Your task to perform on an android device: Clear the cart on target. Search for razer thresher on target, select the first entry, add it to the cart, then select checkout. Image 0: 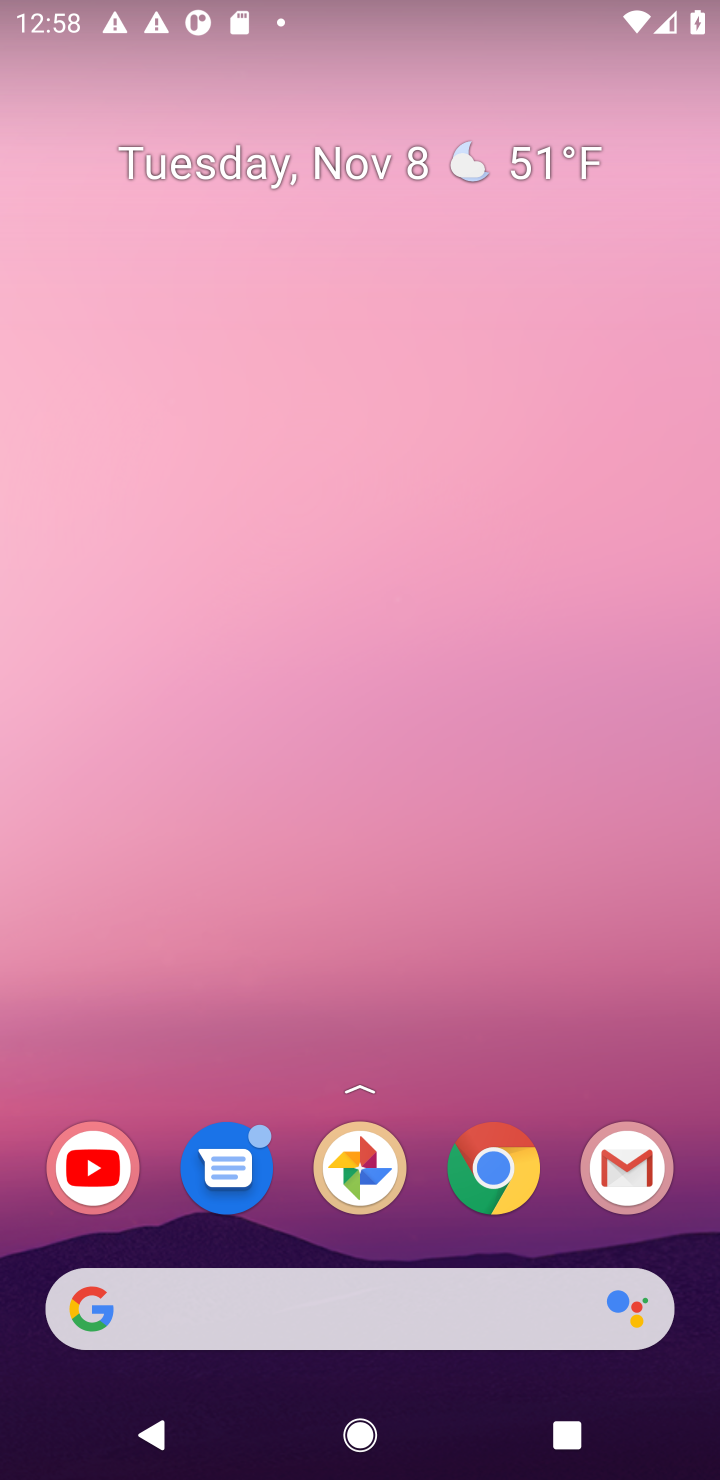
Step 0: drag from (375, 1222) to (554, 263)
Your task to perform on an android device: Clear the cart on target. Search for razer thresher on target, select the first entry, add it to the cart, then select checkout. Image 1: 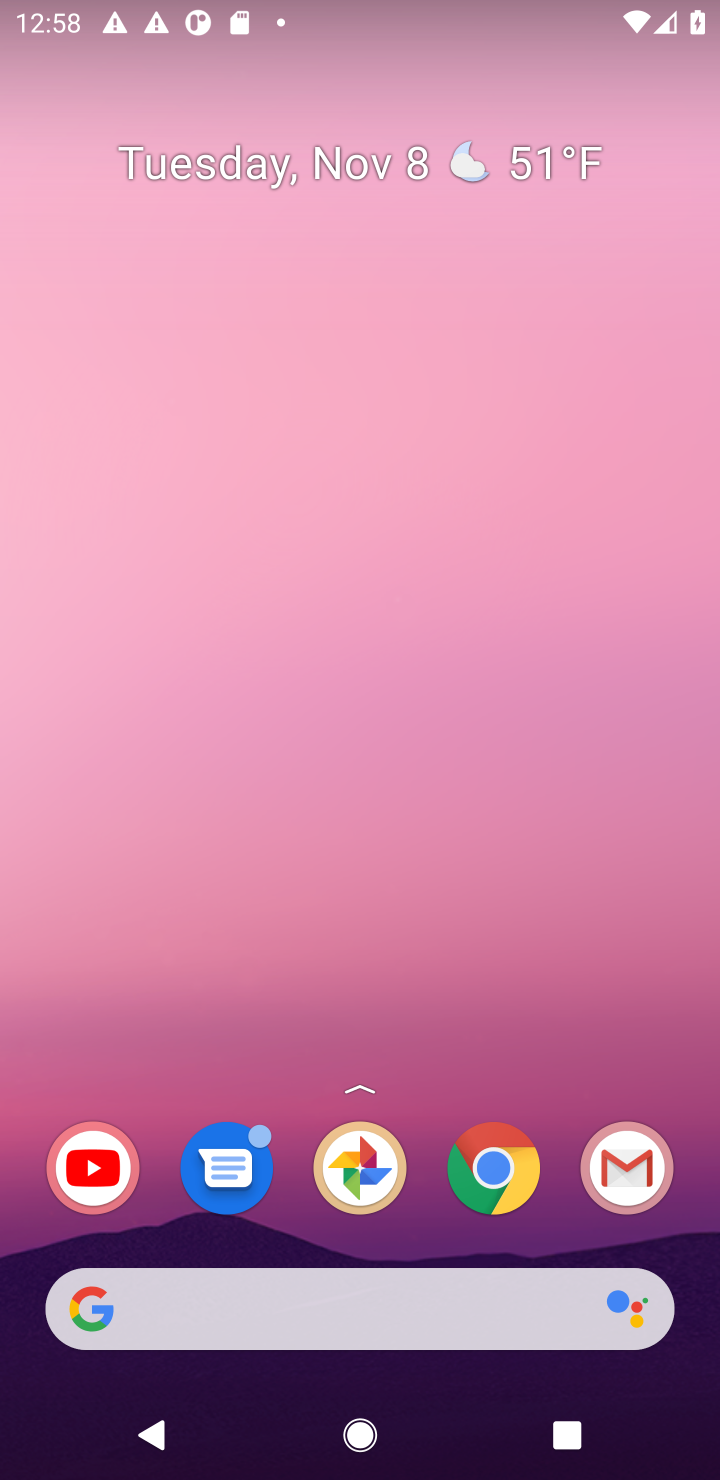
Step 1: drag from (334, 1107) to (395, 428)
Your task to perform on an android device: Clear the cart on target. Search for razer thresher on target, select the first entry, add it to the cart, then select checkout. Image 2: 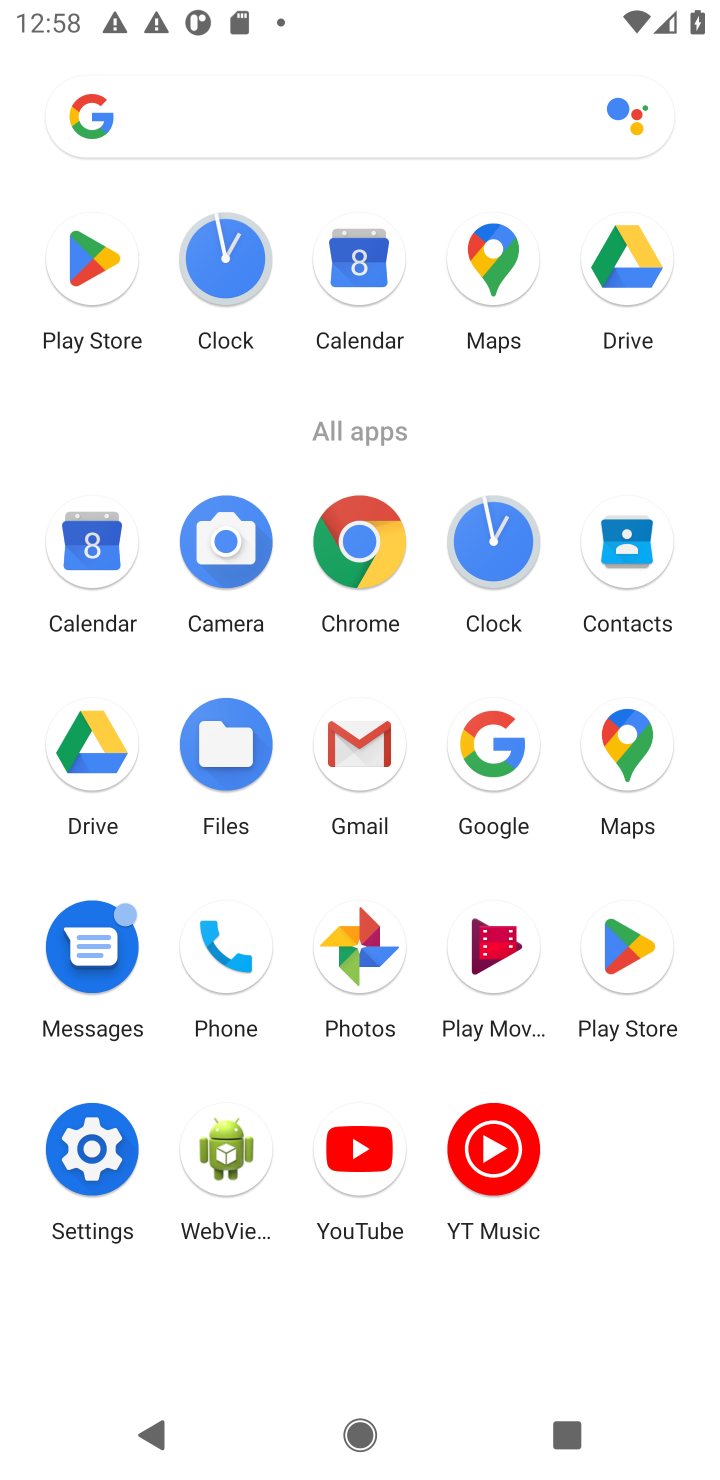
Step 2: click (373, 526)
Your task to perform on an android device: Clear the cart on target. Search for razer thresher on target, select the first entry, add it to the cart, then select checkout. Image 3: 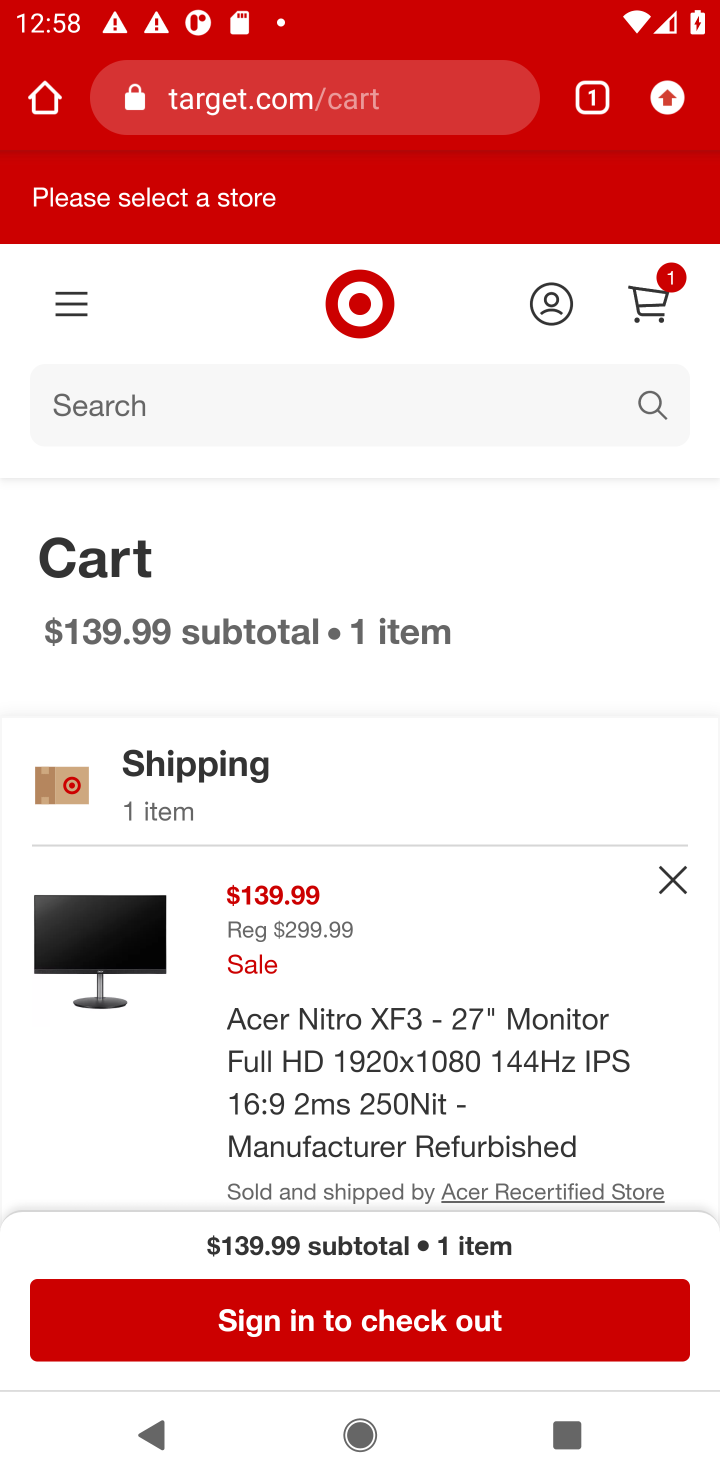
Step 3: click (386, 95)
Your task to perform on an android device: Clear the cart on target. Search for razer thresher on target, select the first entry, add it to the cart, then select checkout. Image 4: 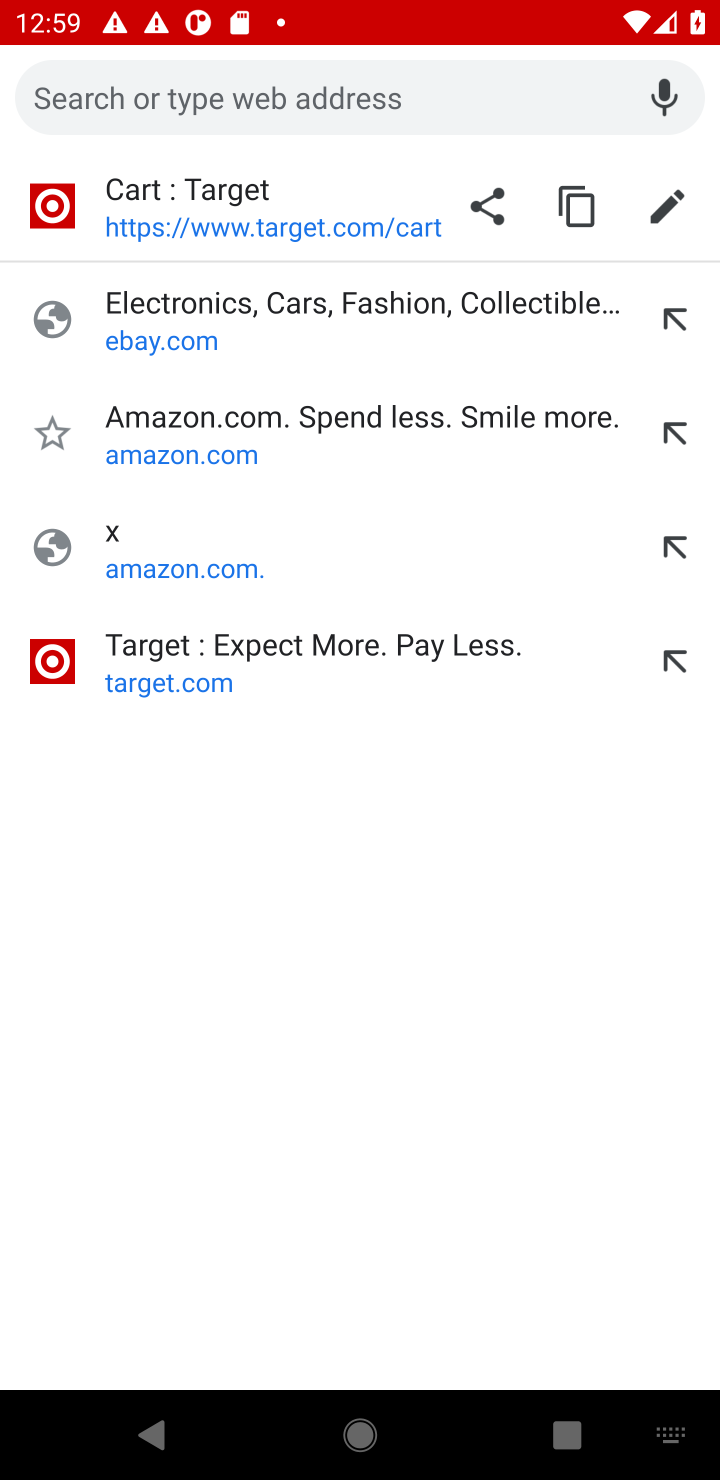
Step 4: type "target"
Your task to perform on an android device: Clear the cart on target. Search for razer thresher on target, select the first entry, add it to the cart, then select checkout. Image 5: 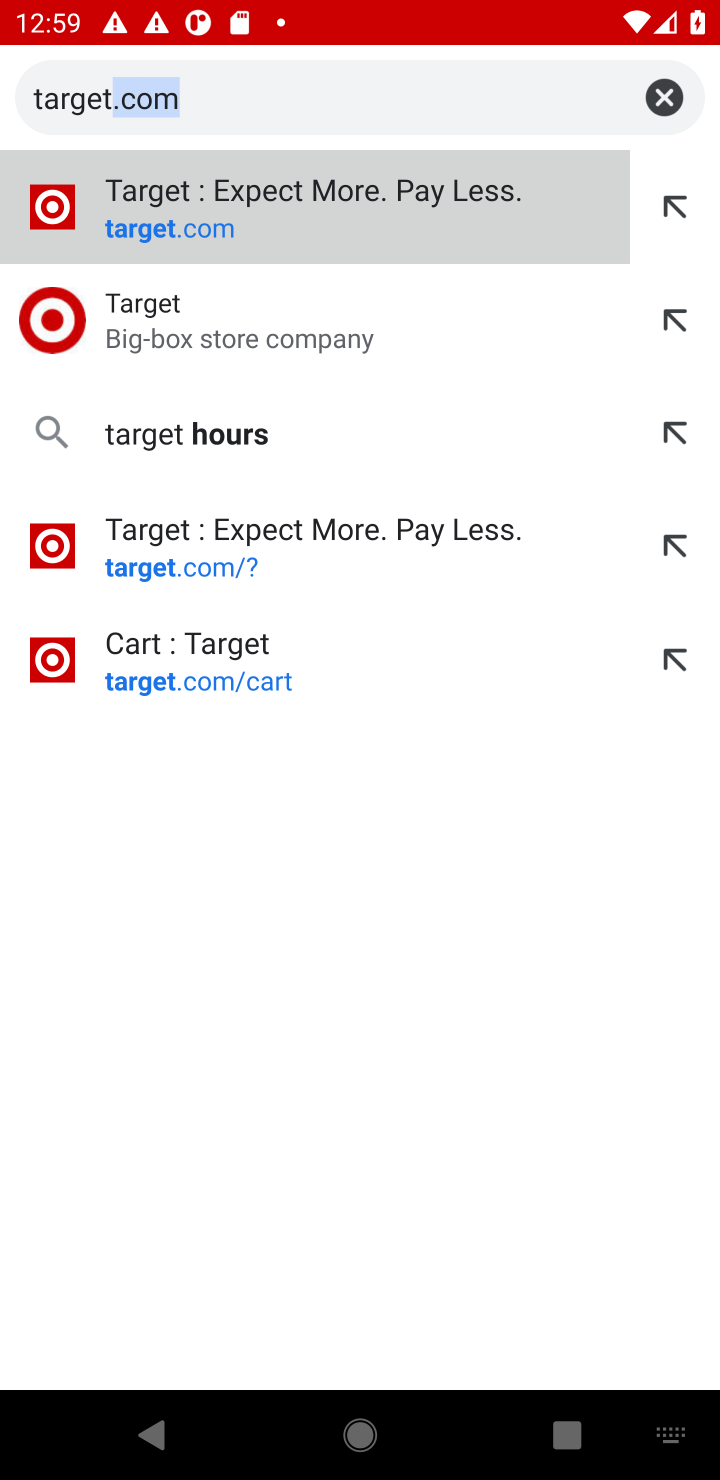
Step 5: press enter
Your task to perform on an android device: Clear the cart on target. Search for razer thresher on target, select the first entry, add it to the cart, then select checkout. Image 6: 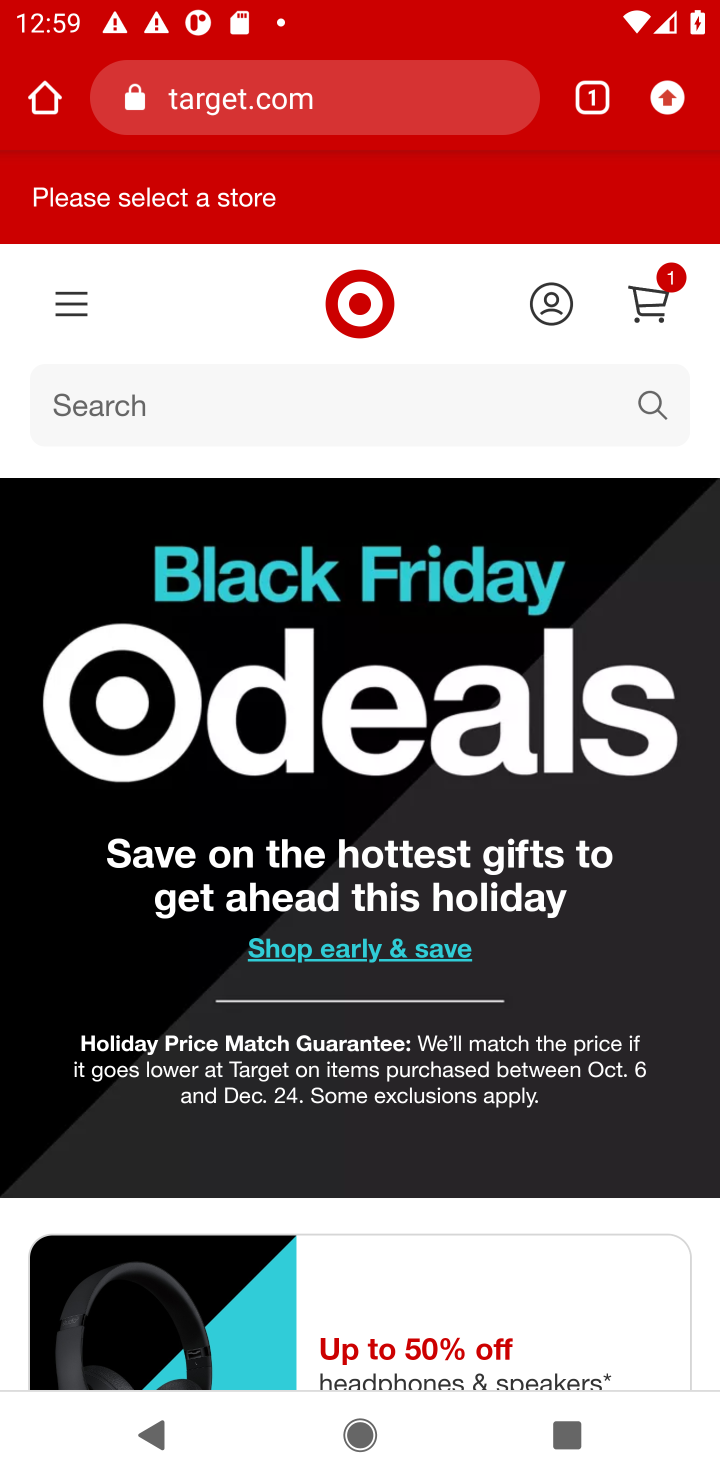
Step 6: click (674, 294)
Your task to perform on an android device: Clear the cart on target. Search for razer thresher on target, select the first entry, add it to the cart, then select checkout. Image 7: 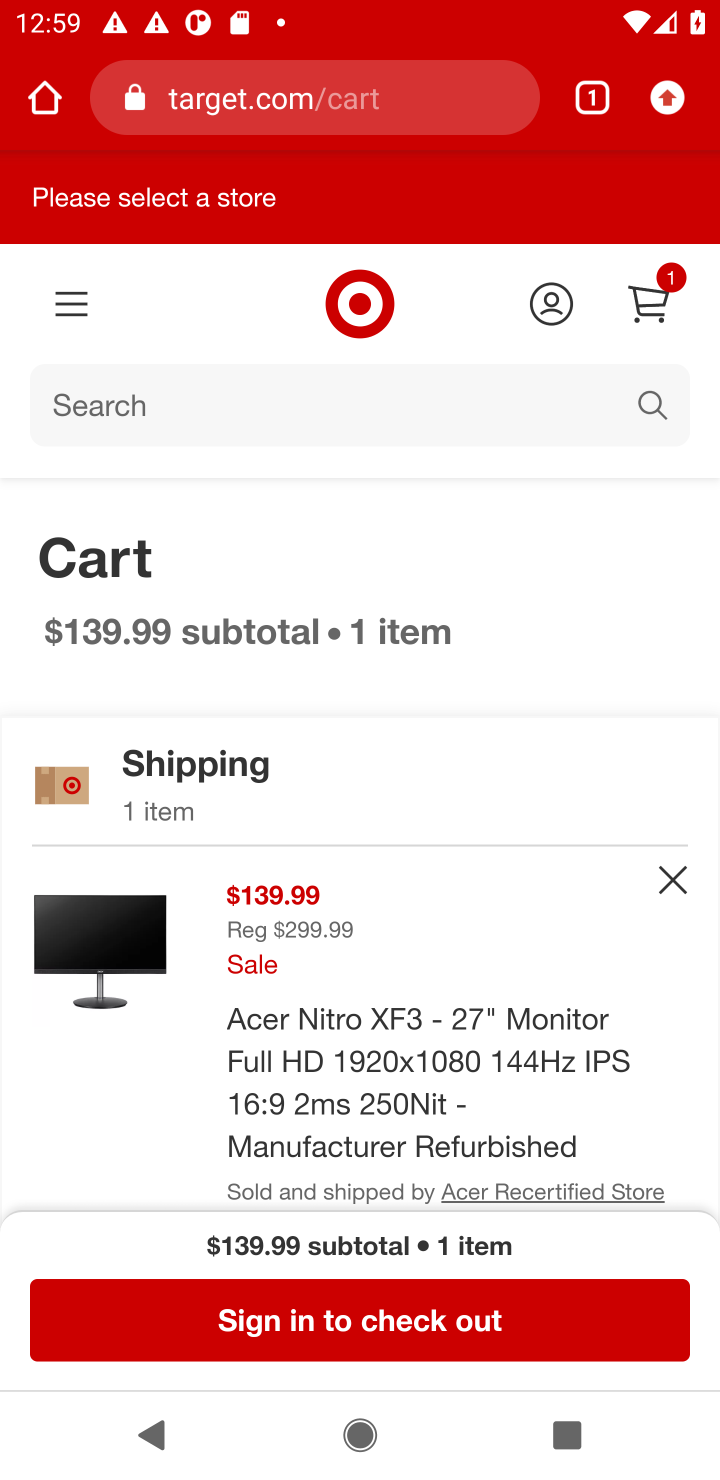
Step 7: click (674, 293)
Your task to perform on an android device: Clear the cart on target. Search for razer thresher on target, select the first entry, add it to the cart, then select checkout. Image 8: 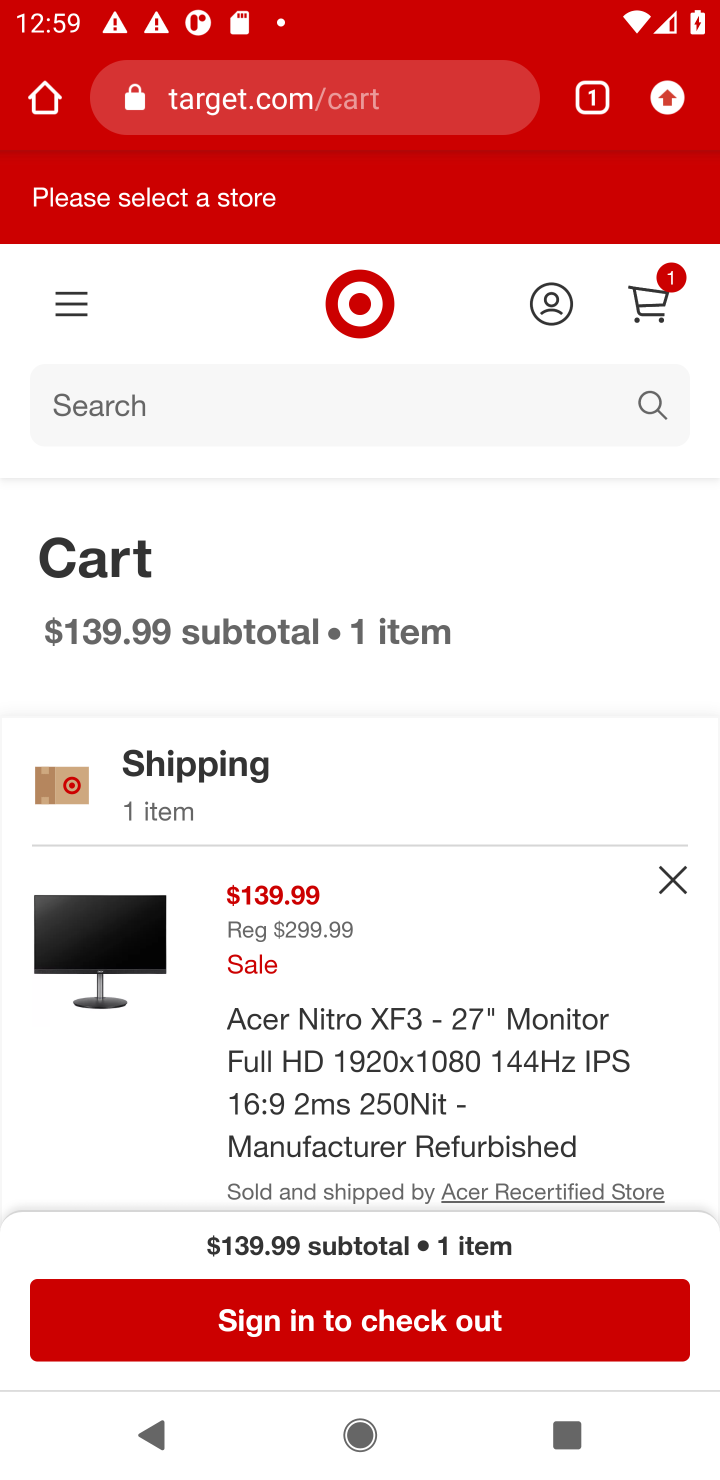
Step 8: drag from (607, 942) to (621, 609)
Your task to perform on an android device: Clear the cart on target. Search for razer thresher on target, select the first entry, add it to the cart, then select checkout. Image 9: 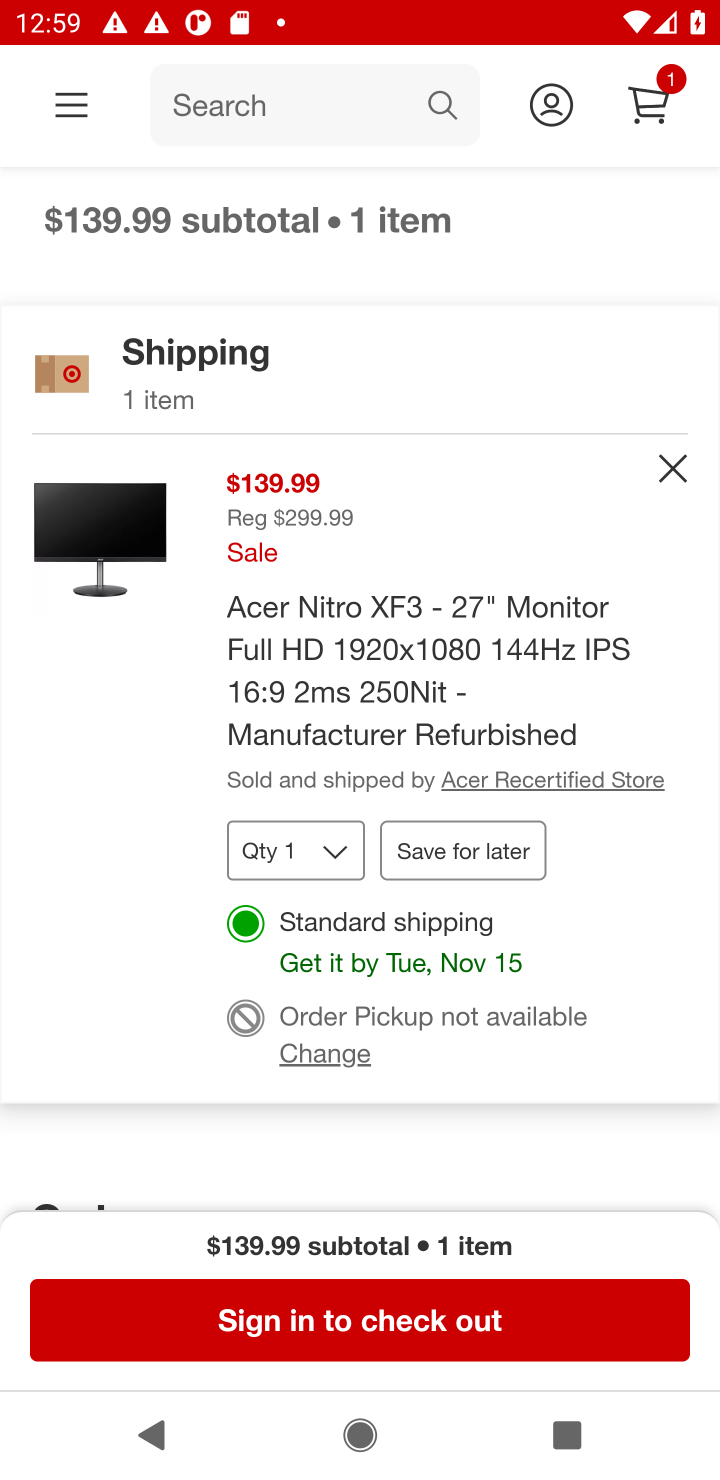
Step 9: click (669, 472)
Your task to perform on an android device: Clear the cart on target. Search for razer thresher on target, select the first entry, add it to the cart, then select checkout. Image 10: 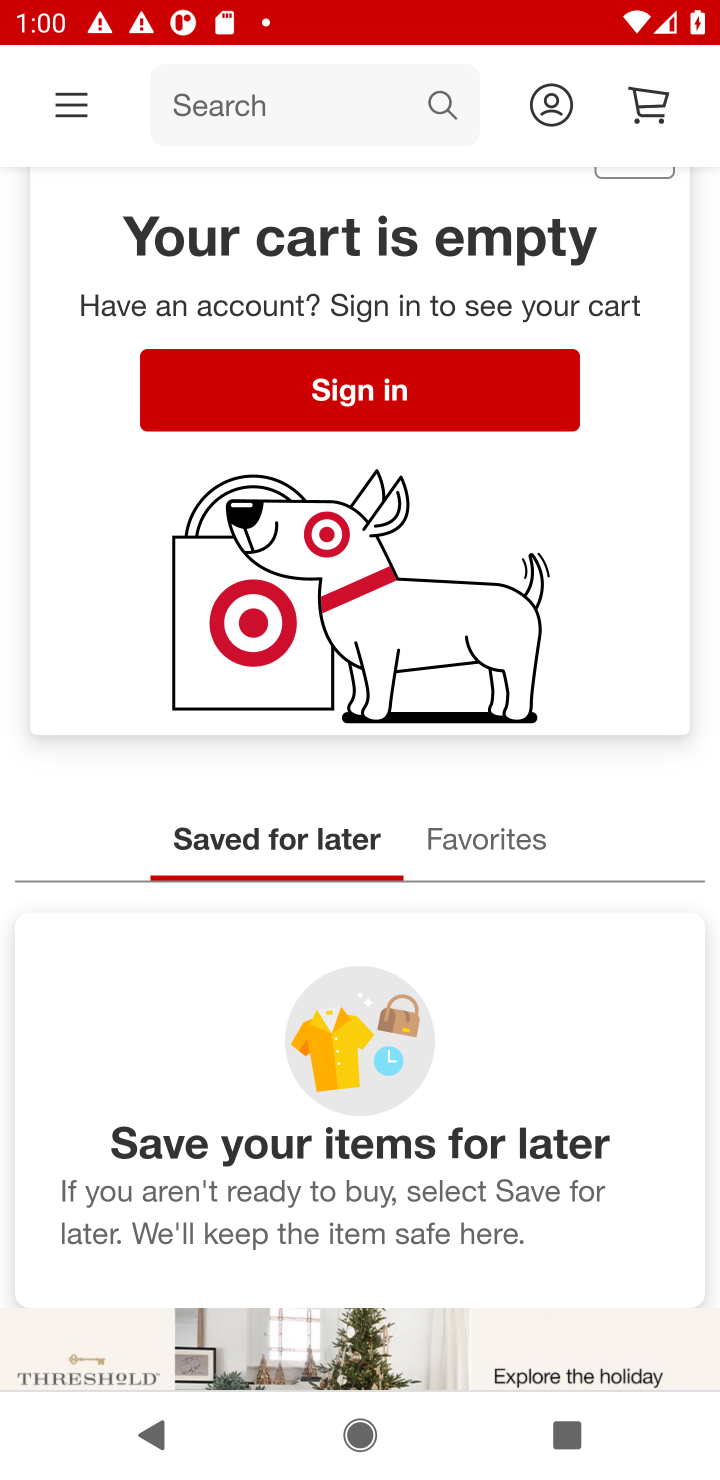
Step 10: click (451, 111)
Your task to perform on an android device: Clear the cart on target. Search for razer thresher on target, select the first entry, add it to the cart, then select checkout. Image 11: 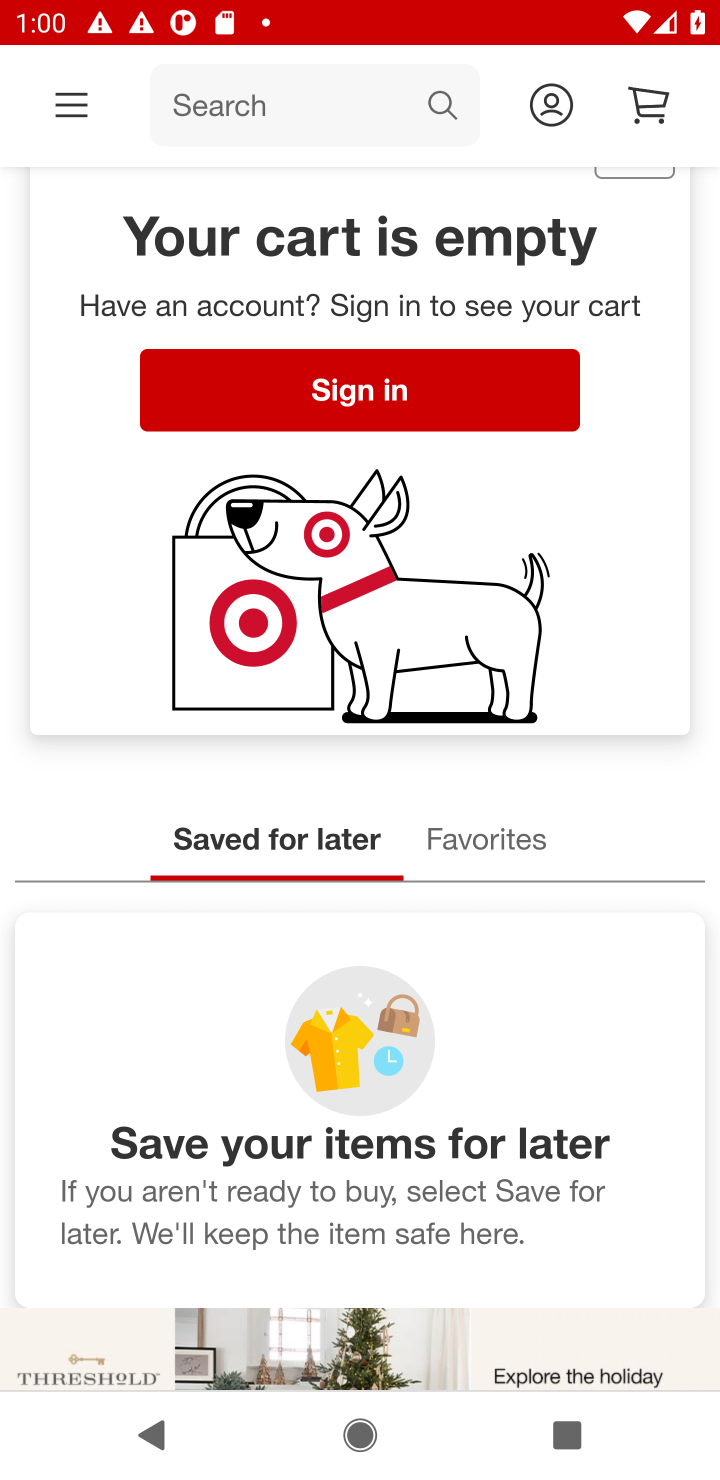
Step 11: click (280, 104)
Your task to perform on an android device: Clear the cart on target. Search for razer thresher on target, select the first entry, add it to the cart, then select checkout. Image 12: 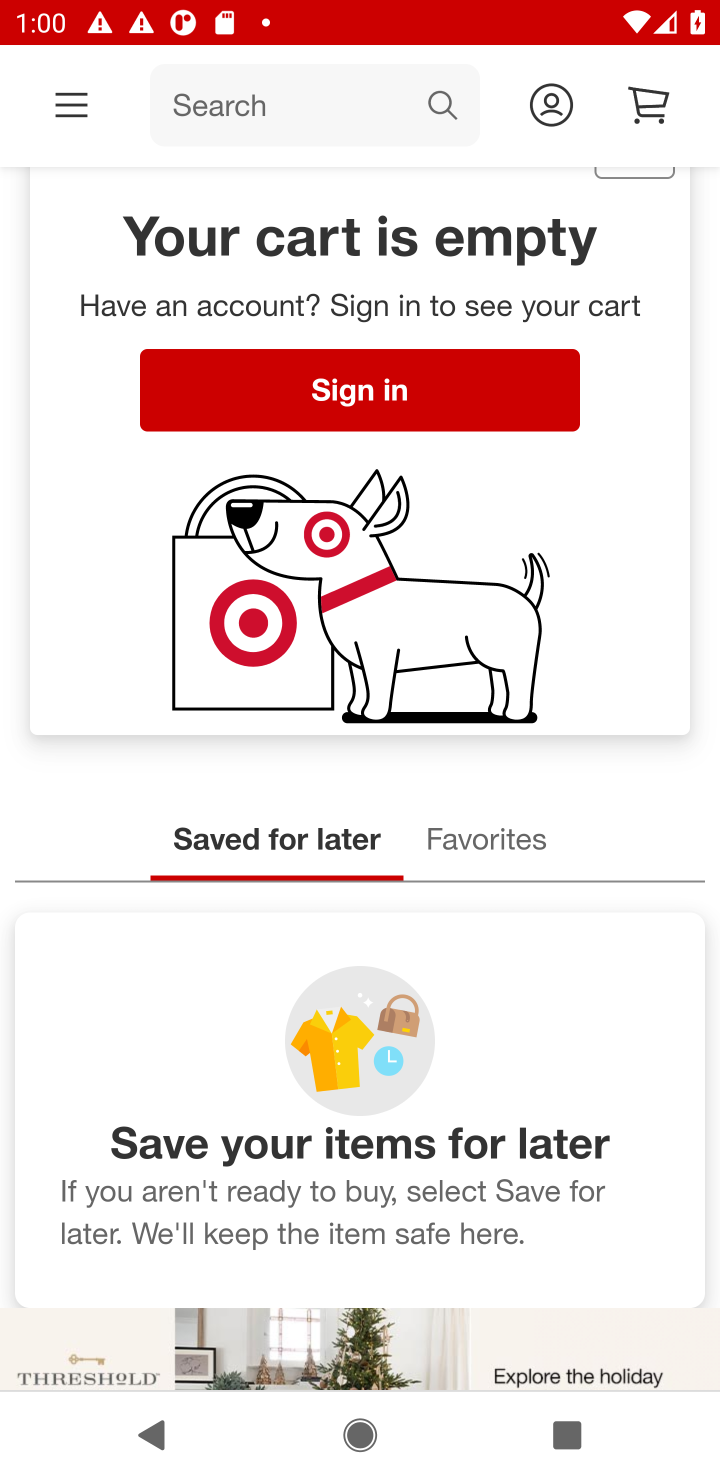
Step 12: click (280, 104)
Your task to perform on an android device: Clear the cart on target. Search for razer thresher on target, select the first entry, add it to the cart, then select checkout. Image 13: 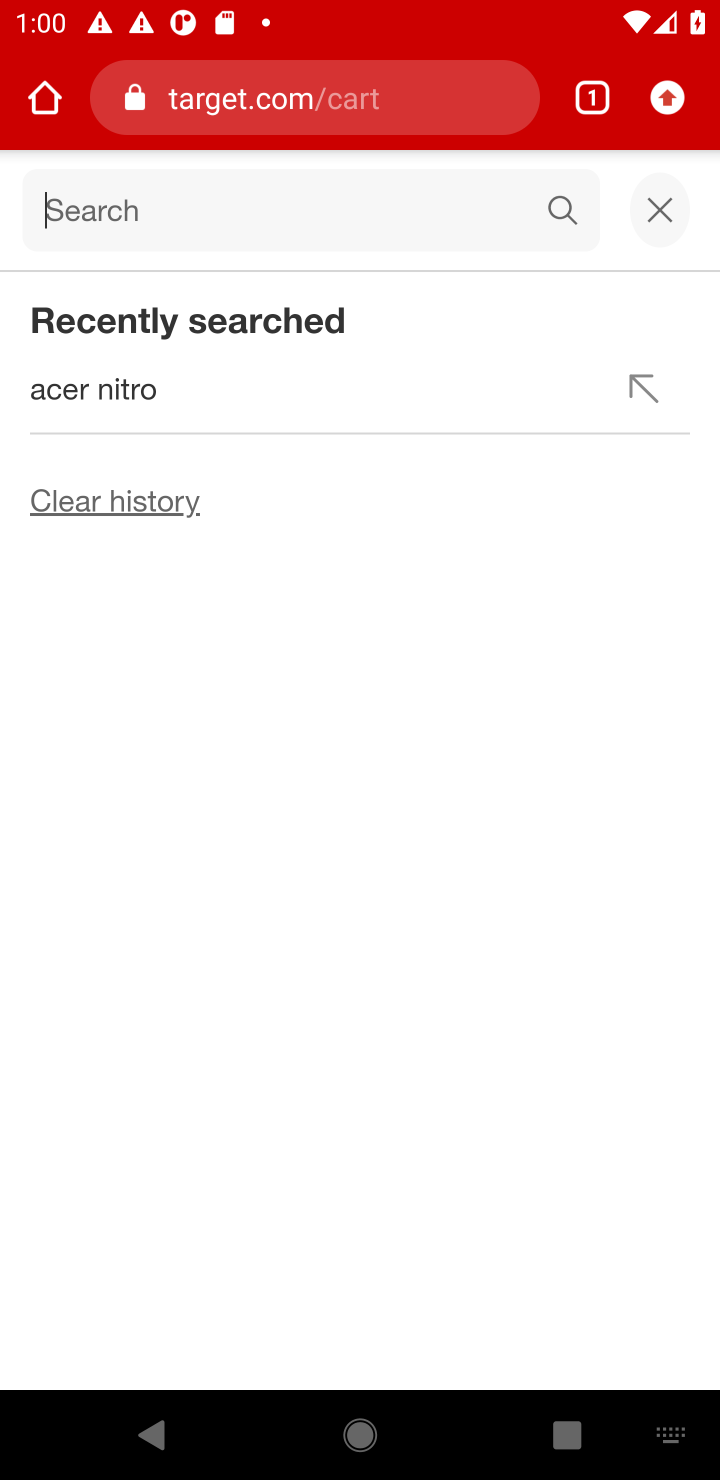
Step 13: type "razer thresher "
Your task to perform on an android device: Clear the cart on target. Search for razer thresher on target, select the first entry, add it to the cart, then select checkout. Image 14: 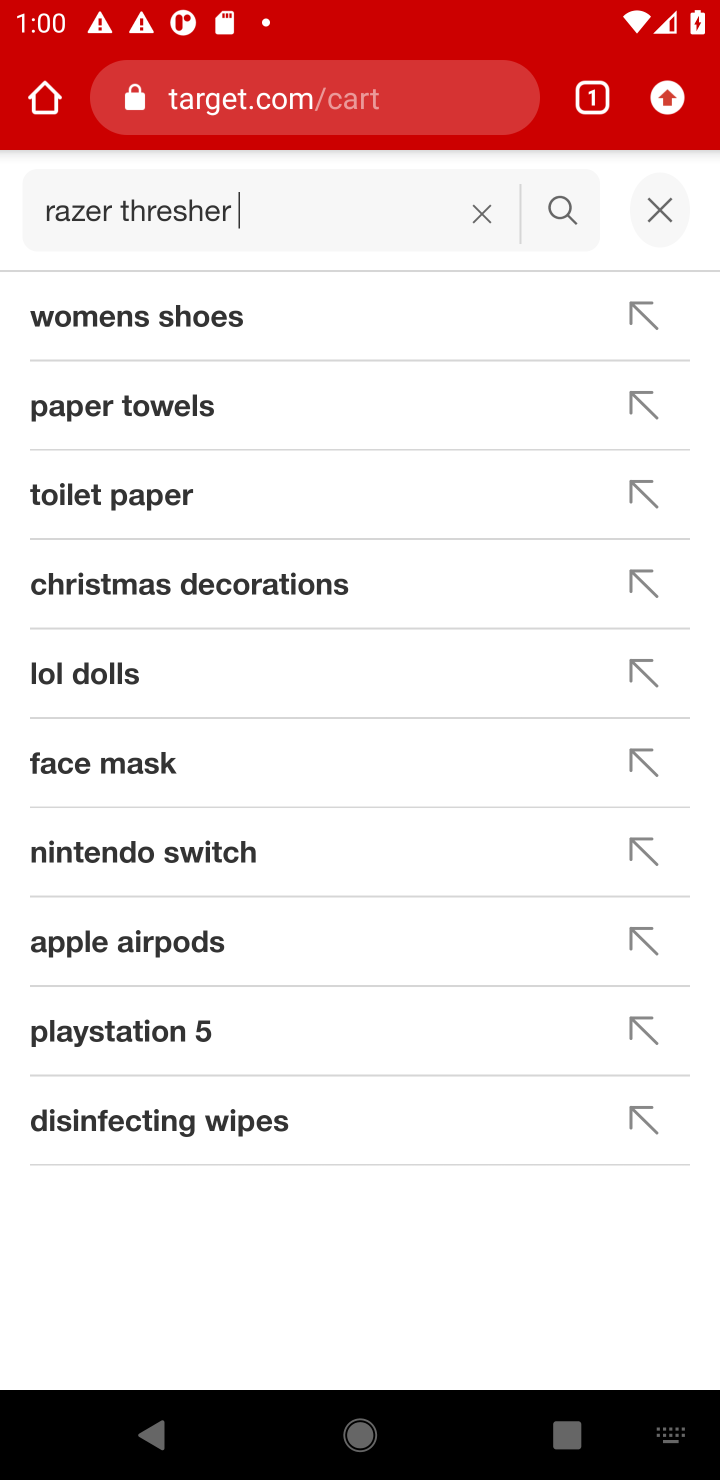
Step 14: press enter
Your task to perform on an android device: Clear the cart on target. Search for razer thresher on target, select the first entry, add it to the cart, then select checkout. Image 15: 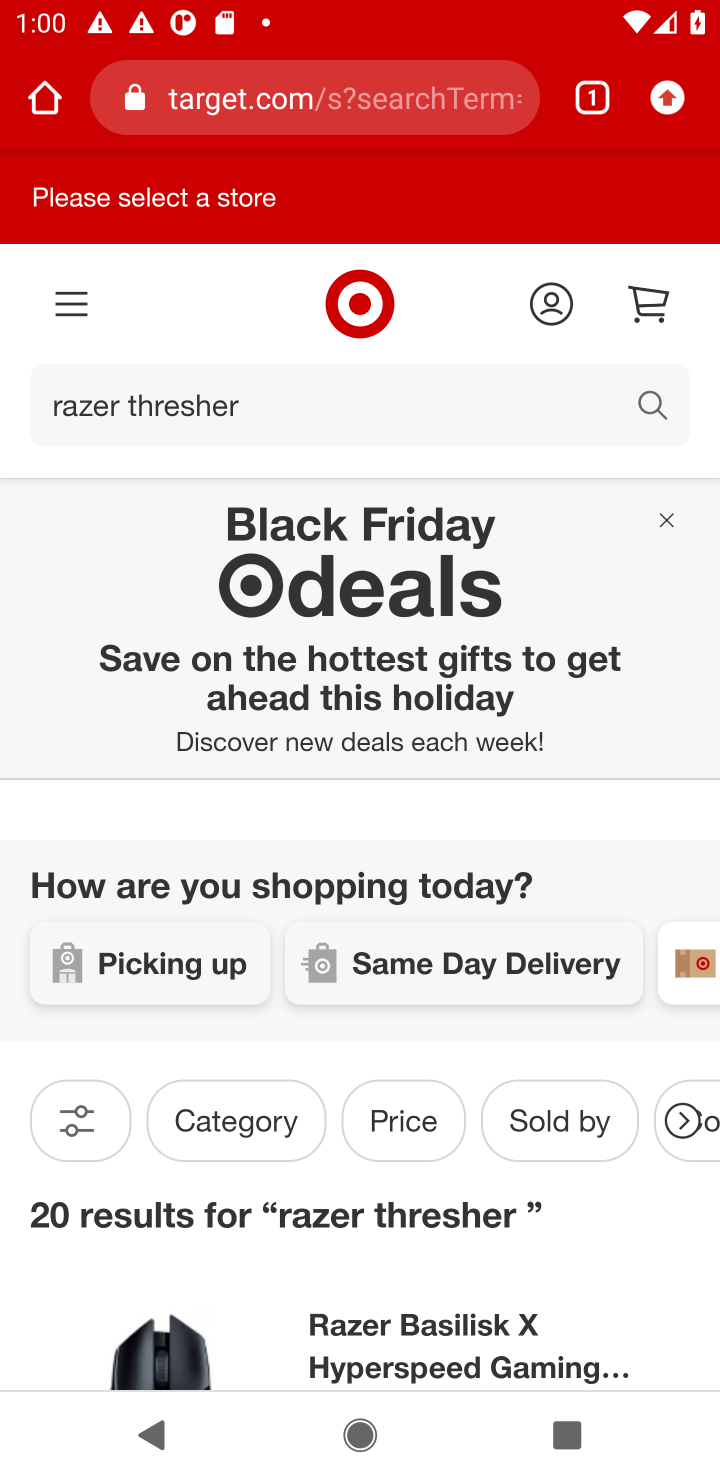
Step 15: drag from (414, 1174) to (398, 481)
Your task to perform on an android device: Clear the cart on target. Search for razer thresher on target, select the first entry, add it to the cart, then select checkout. Image 16: 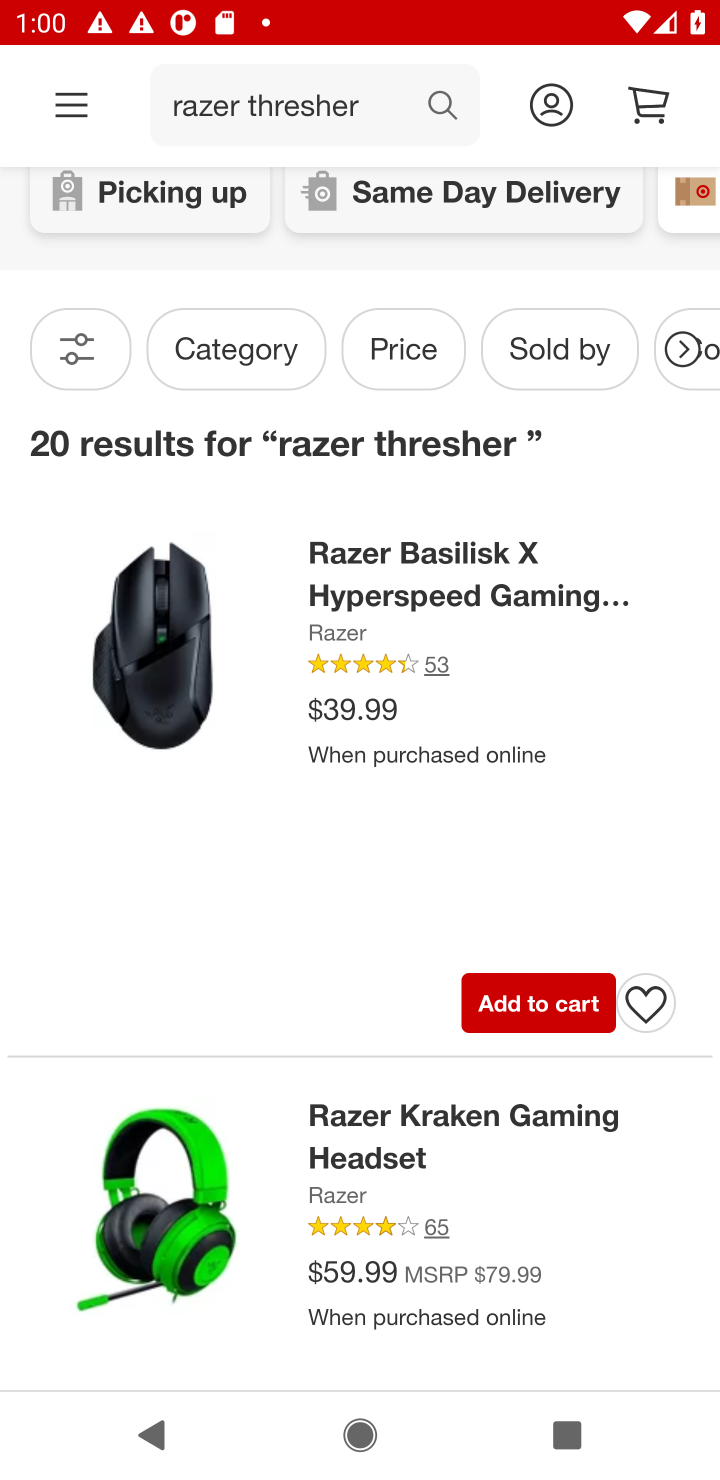
Step 16: click (420, 608)
Your task to perform on an android device: Clear the cart on target. Search for razer thresher on target, select the first entry, add it to the cart, then select checkout. Image 17: 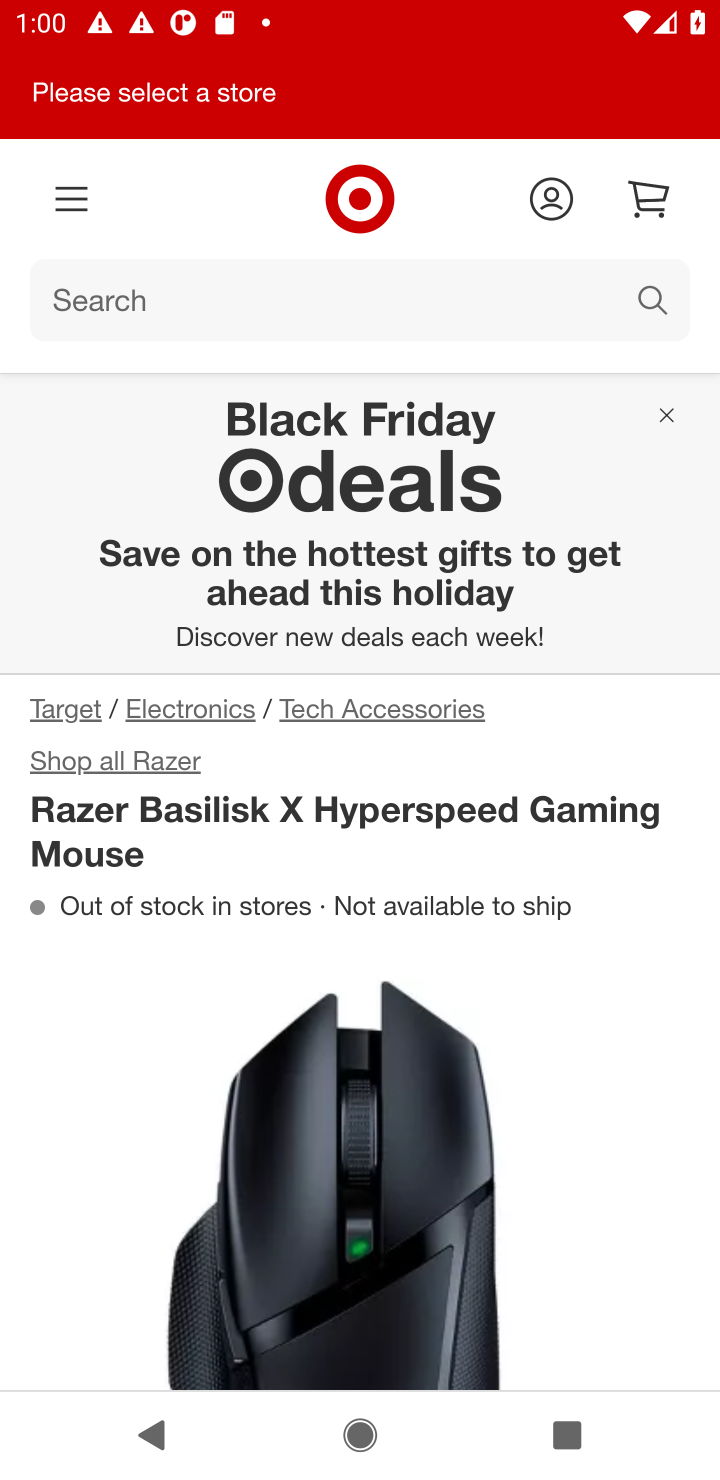
Step 17: drag from (454, 1078) to (568, 349)
Your task to perform on an android device: Clear the cart on target. Search for razer thresher on target, select the first entry, add it to the cart, then select checkout. Image 18: 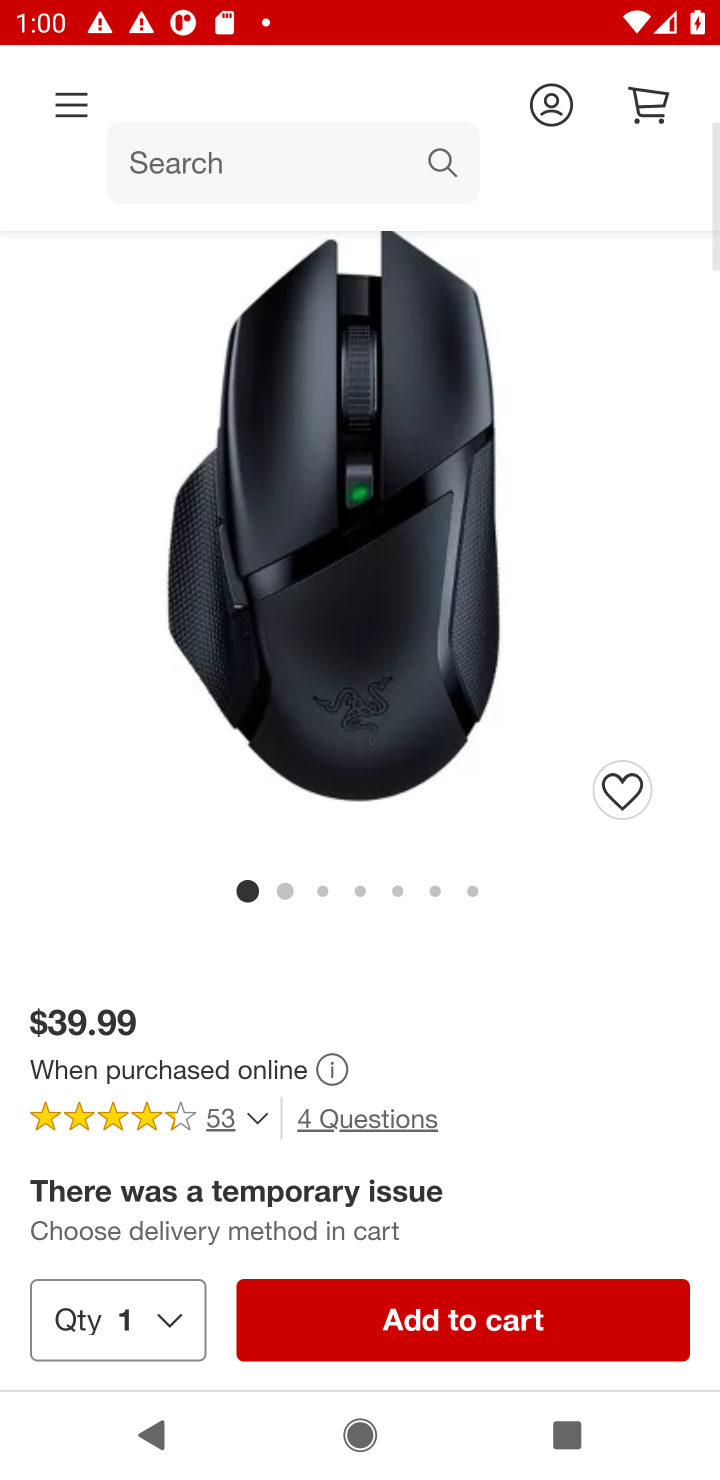
Step 18: drag from (426, 1229) to (447, 511)
Your task to perform on an android device: Clear the cart on target. Search for razer thresher on target, select the first entry, add it to the cart, then select checkout. Image 19: 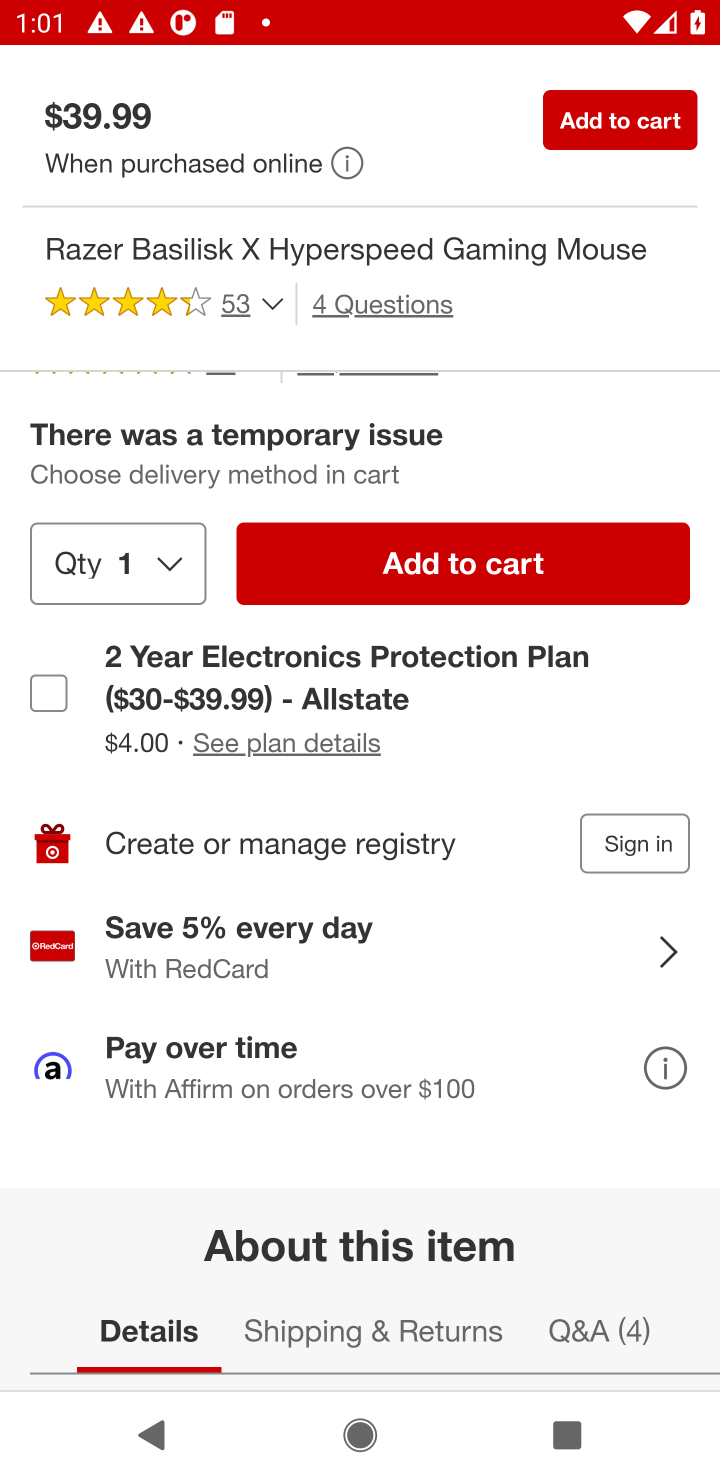
Step 19: click (630, 133)
Your task to perform on an android device: Clear the cart on target. Search for razer thresher on target, select the first entry, add it to the cart, then select checkout. Image 20: 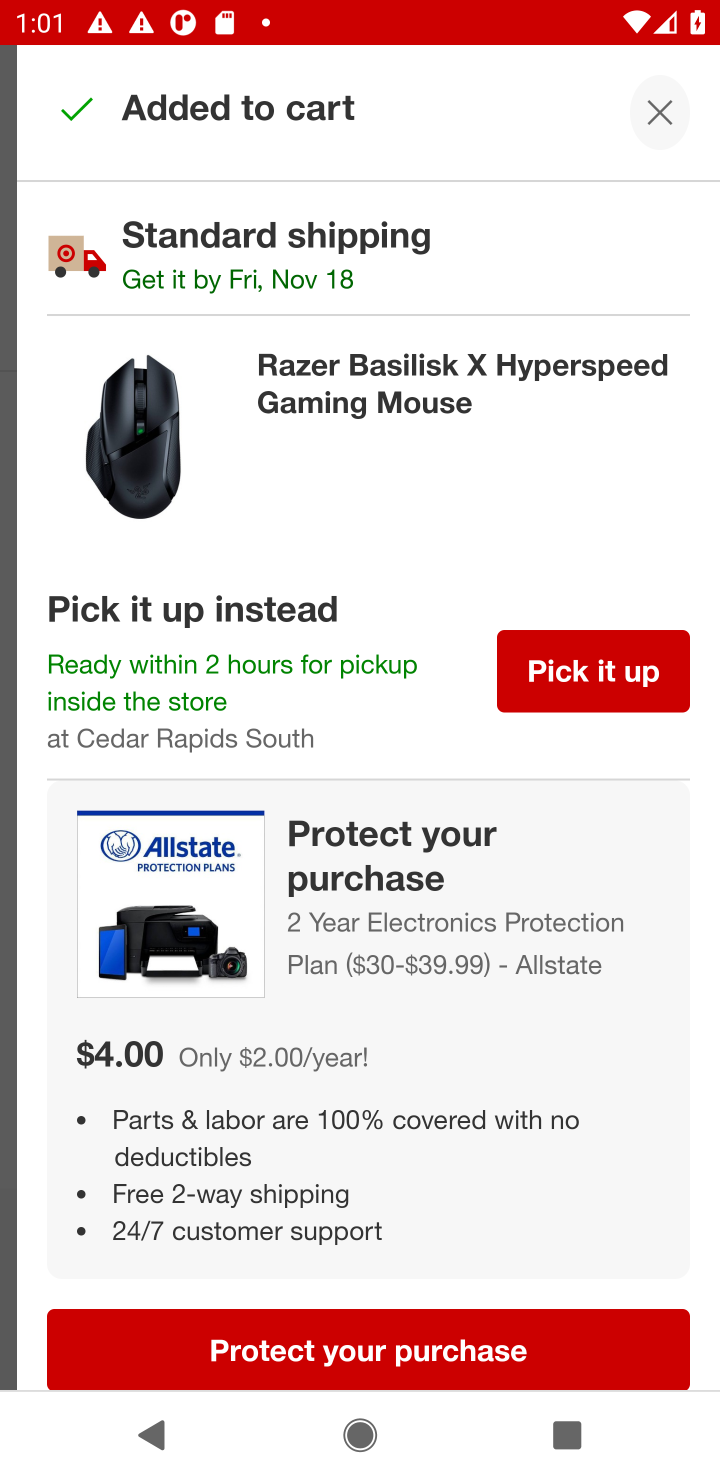
Step 20: click (659, 127)
Your task to perform on an android device: Clear the cart on target. Search for razer thresher on target, select the first entry, add it to the cart, then select checkout. Image 21: 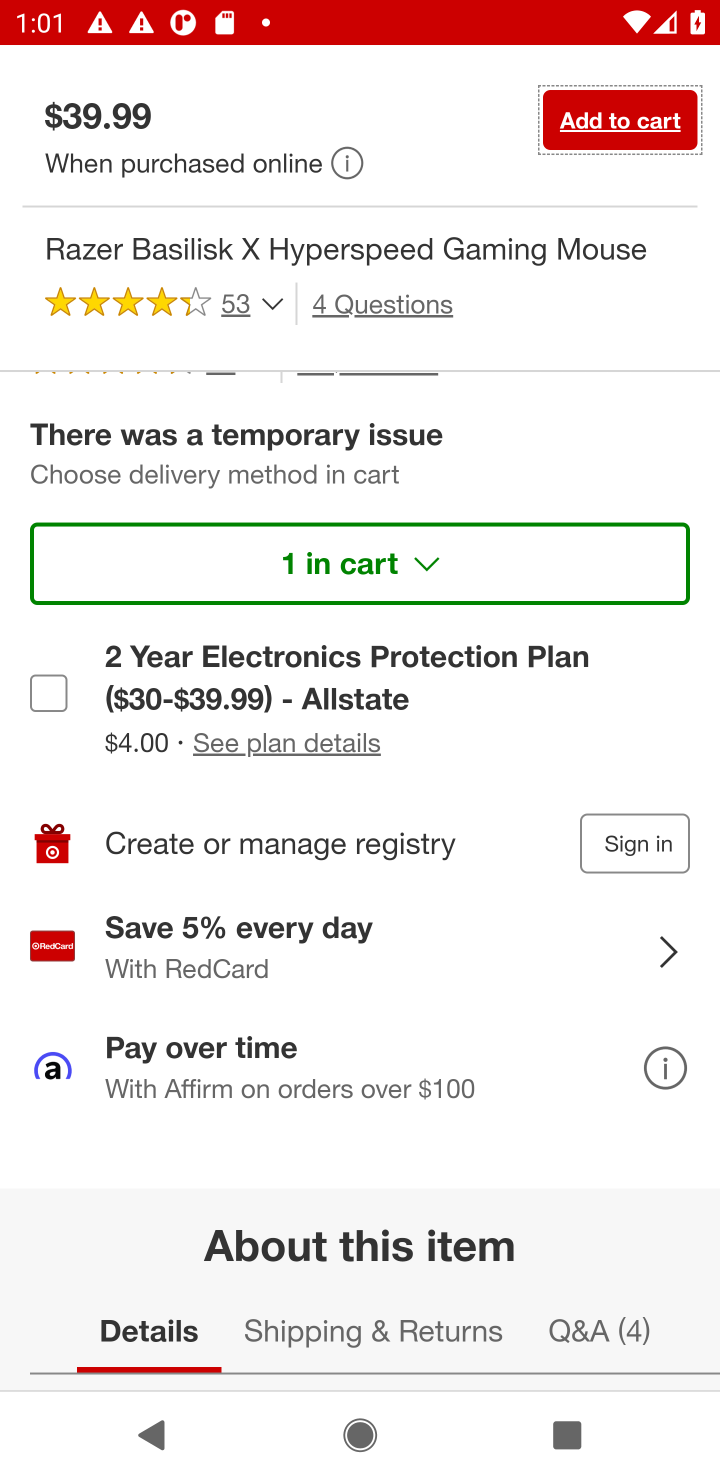
Step 21: drag from (609, 356) to (690, 898)
Your task to perform on an android device: Clear the cart on target. Search for razer thresher on target, select the first entry, add it to the cart, then select checkout. Image 22: 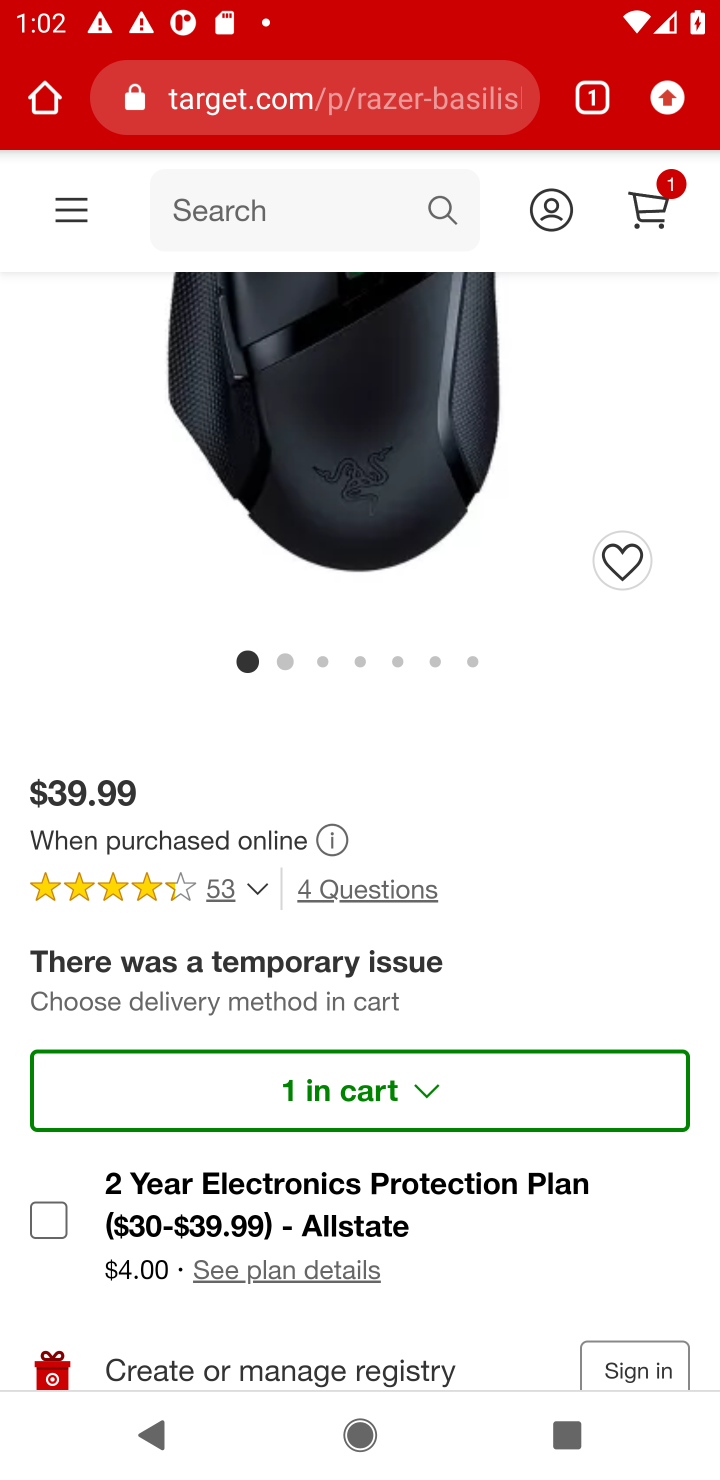
Step 22: drag from (643, 619) to (664, 899)
Your task to perform on an android device: Clear the cart on target. Search for razer thresher on target, select the first entry, add it to the cart, then select checkout. Image 23: 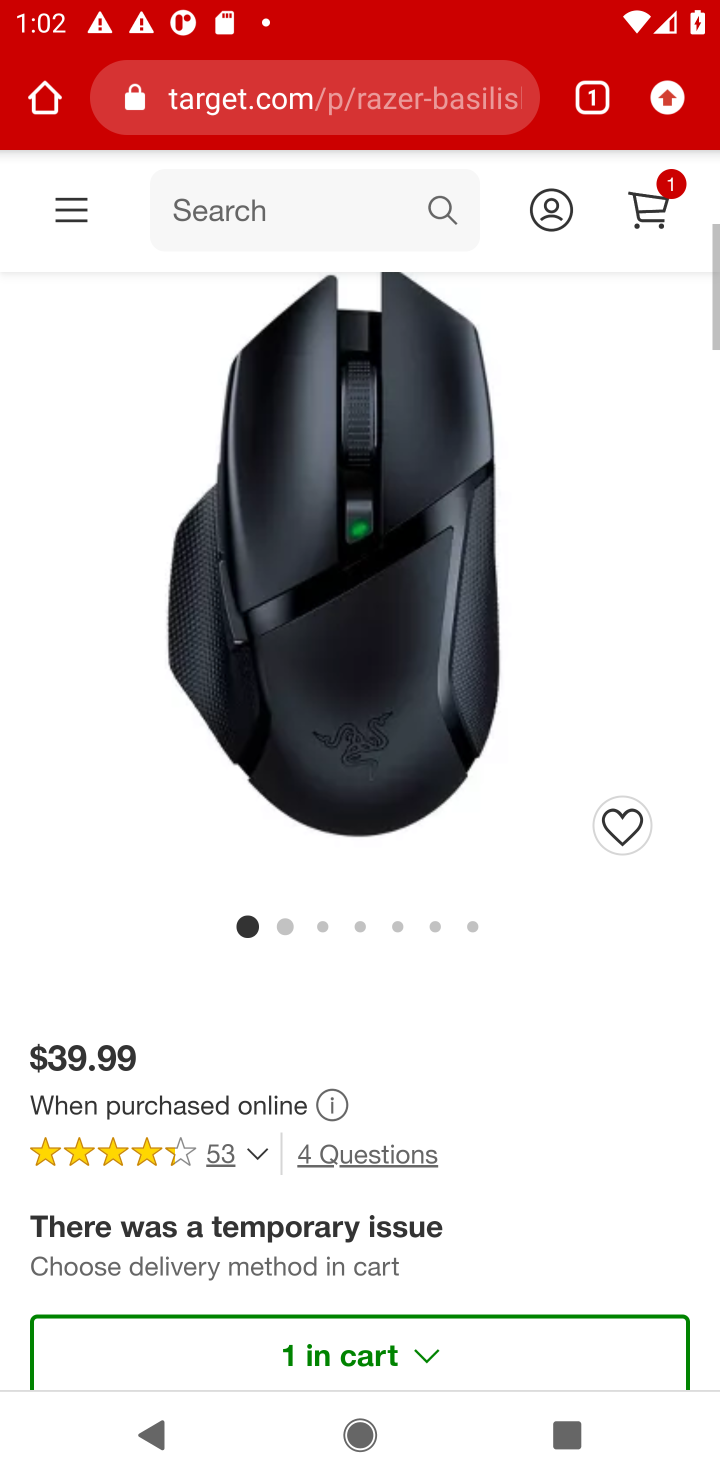
Step 23: click (653, 217)
Your task to perform on an android device: Clear the cart on target. Search for razer thresher on target, select the first entry, add it to the cart, then select checkout. Image 24: 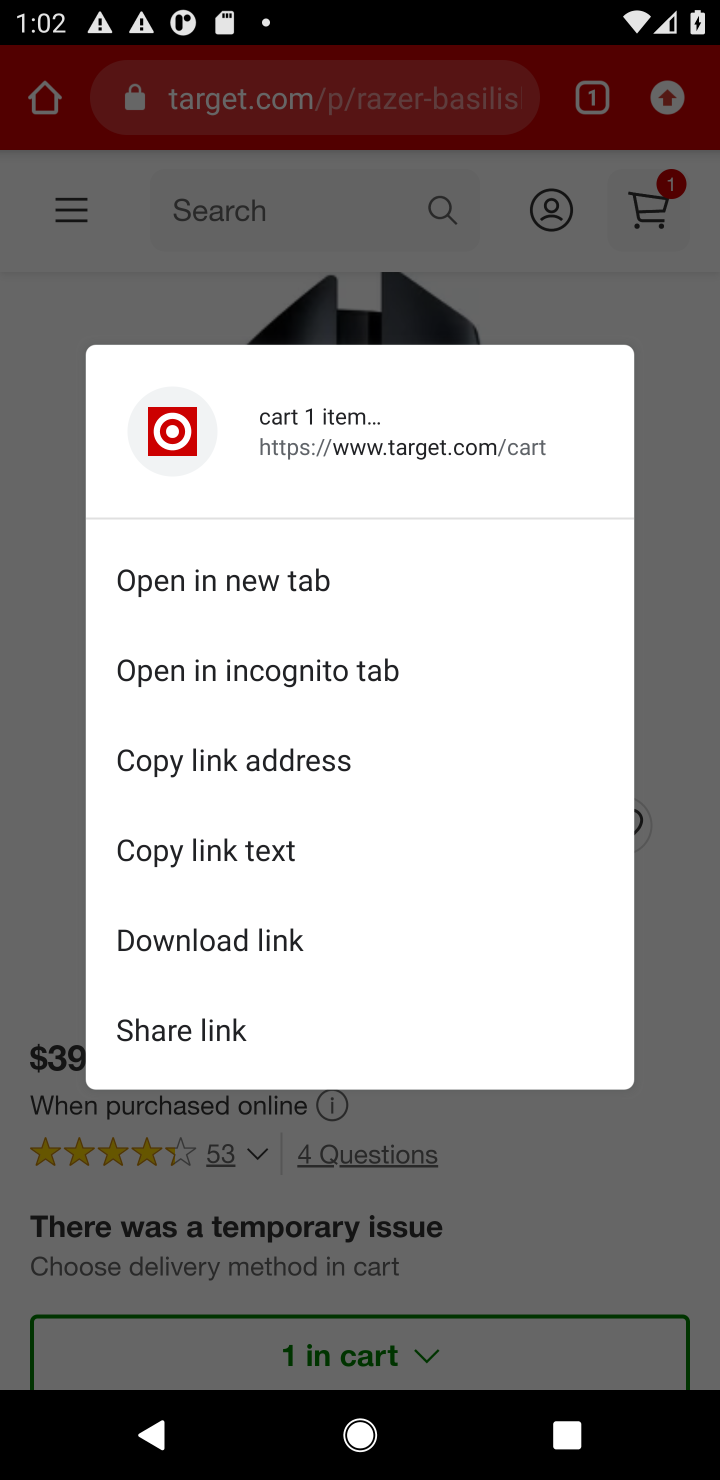
Step 24: click (653, 217)
Your task to perform on an android device: Clear the cart on target. Search for razer thresher on target, select the first entry, add it to the cart, then select checkout. Image 25: 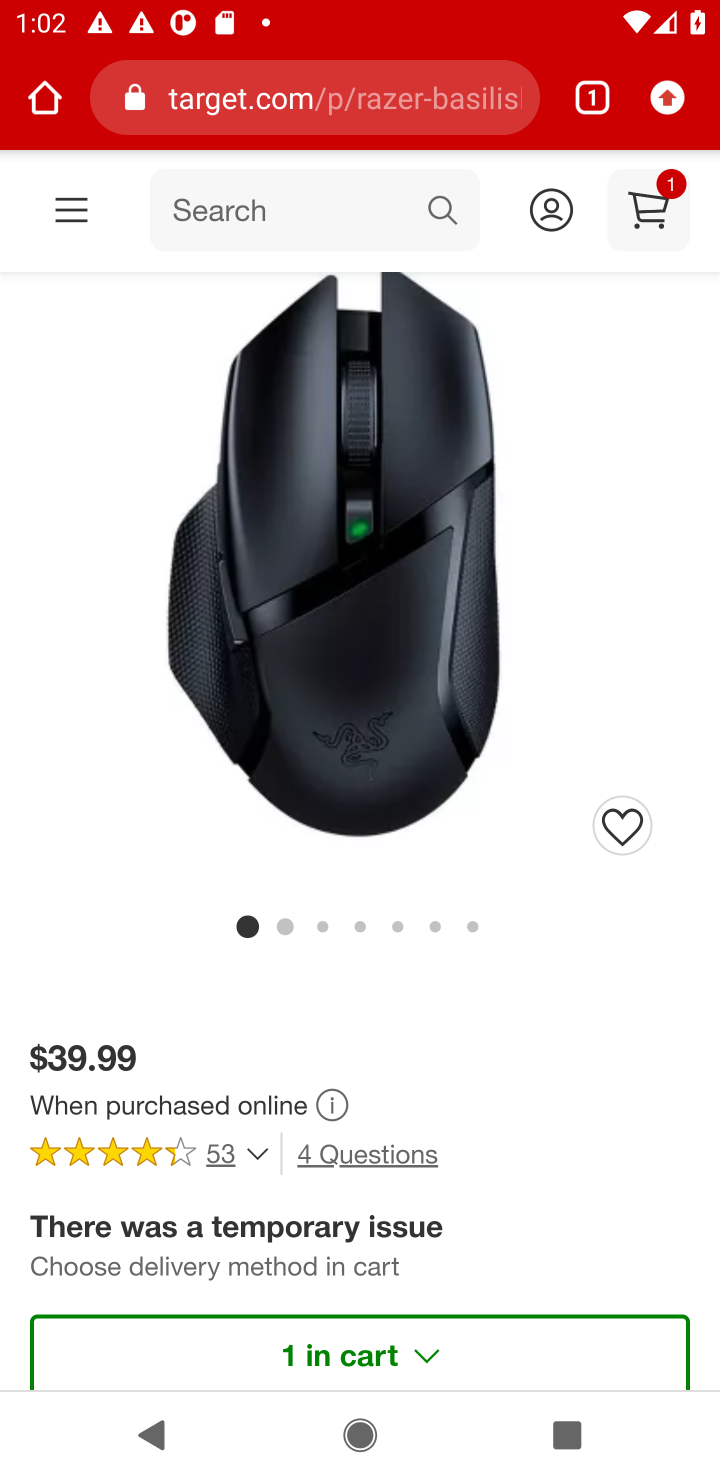
Step 25: click (653, 205)
Your task to perform on an android device: Clear the cart on target. Search for razer thresher on target, select the first entry, add it to the cart, then select checkout. Image 26: 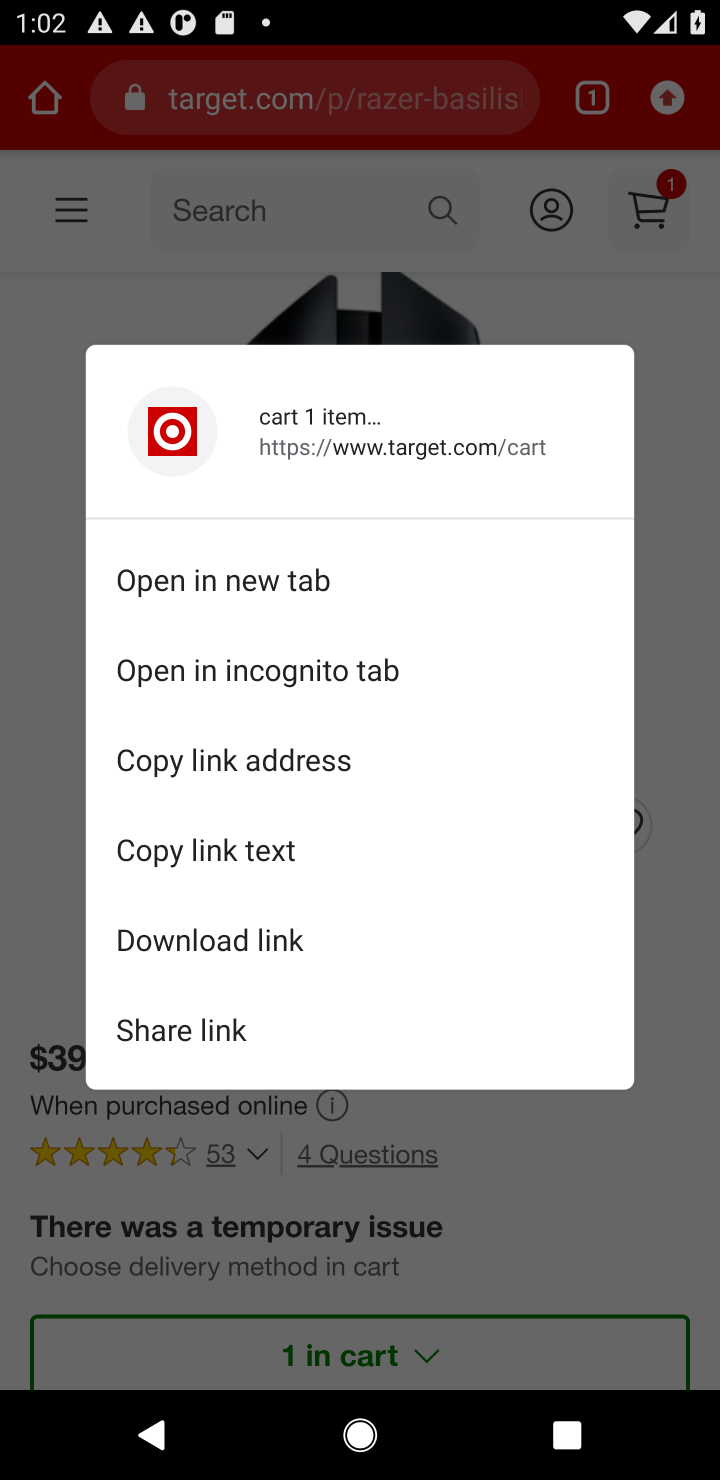
Step 26: click (653, 205)
Your task to perform on an android device: Clear the cart on target. Search for razer thresher on target, select the first entry, add it to the cart, then select checkout. Image 27: 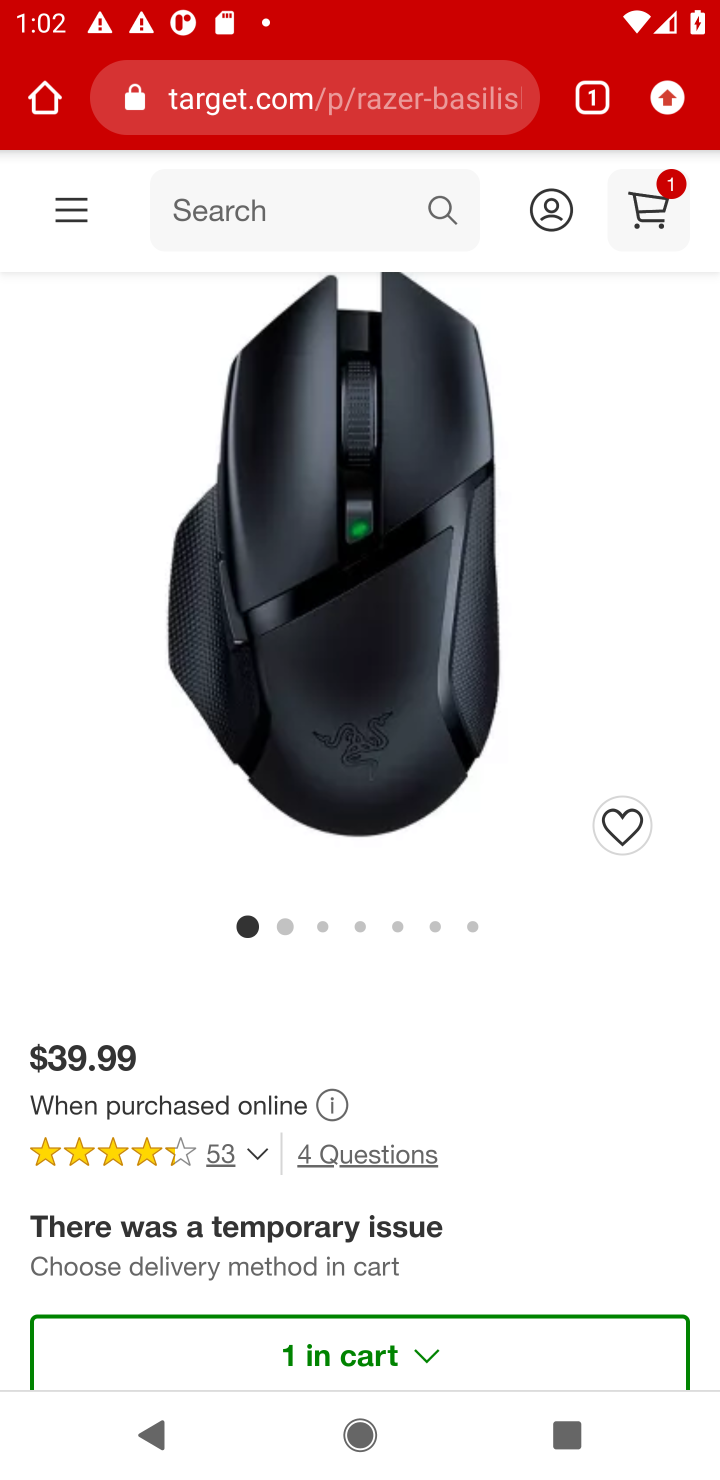
Step 27: click (653, 178)
Your task to perform on an android device: Clear the cart on target. Search for razer thresher on target, select the first entry, add it to the cart, then select checkout. Image 28: 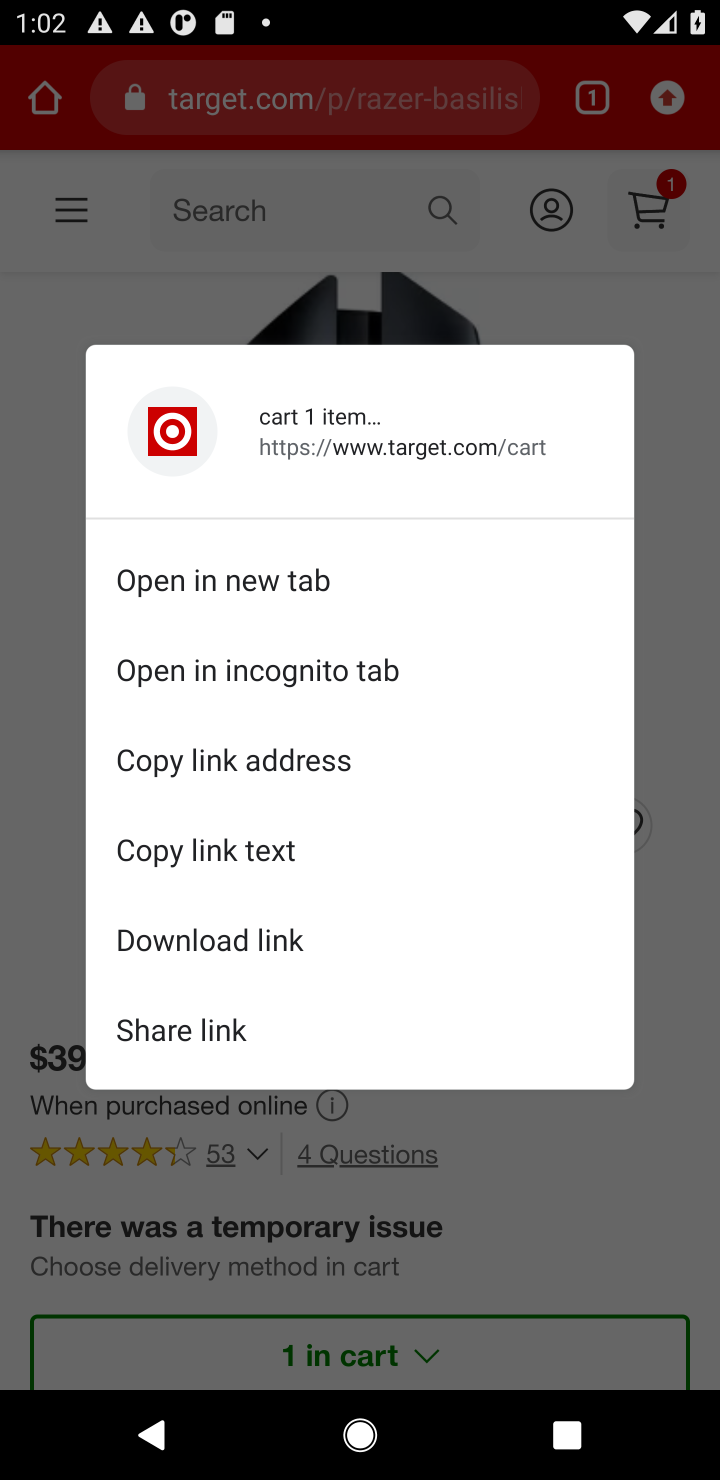
Step 28: click (653, 180)
Your task to perform on an android device: Clear the cart on target. Search for razer thresher on target, select the first entry, add it to the cart, then select checkout. Image 29: 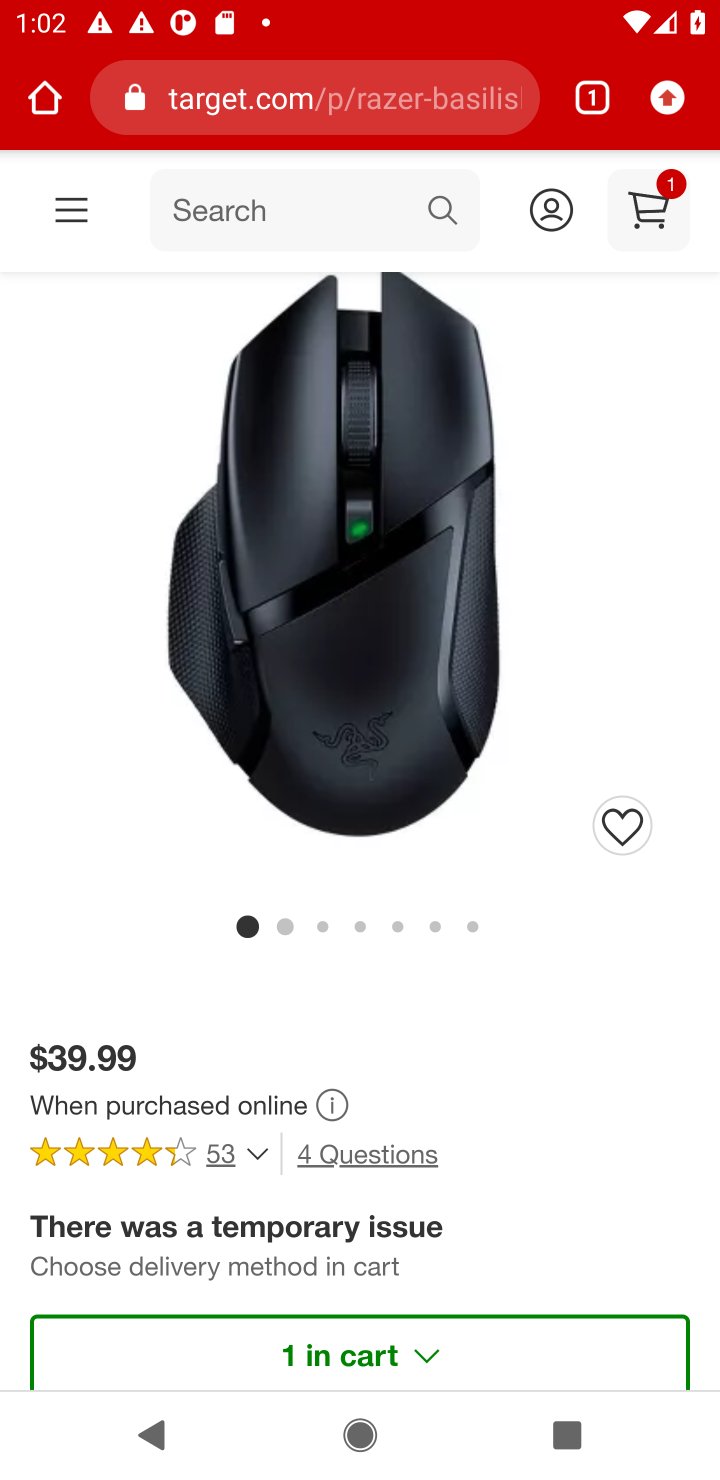
Step 29: click (654, 214)
Your task to perform on an android device: Clear the cart on target. Search for razer thresher on target, select the first entry, add it to the cart, then select checkout. Image 30: 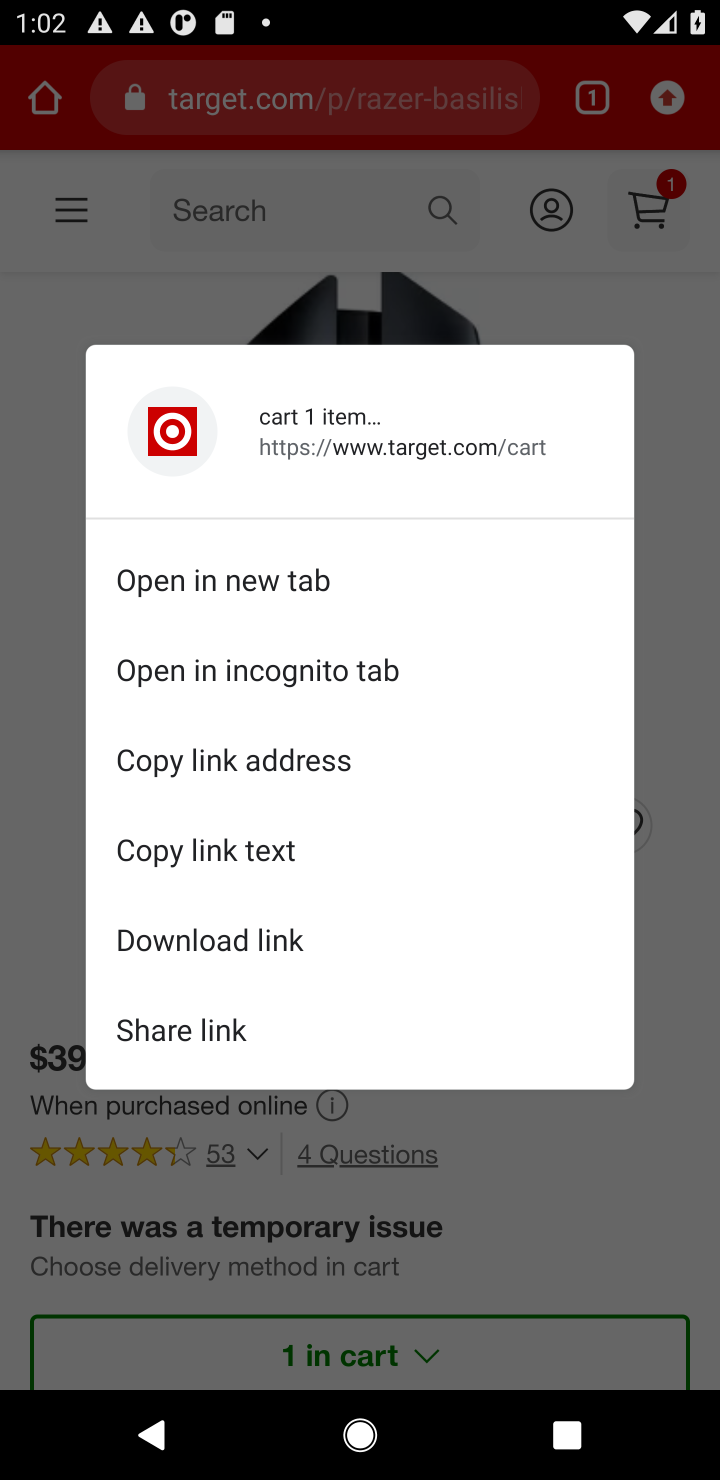
Step 30: click (202, 560)
Your task to perform on an android device: Clear the cart on target. Search for razer thresher on target, select the first entry, add it to the cart, then select checkout. Image 31: 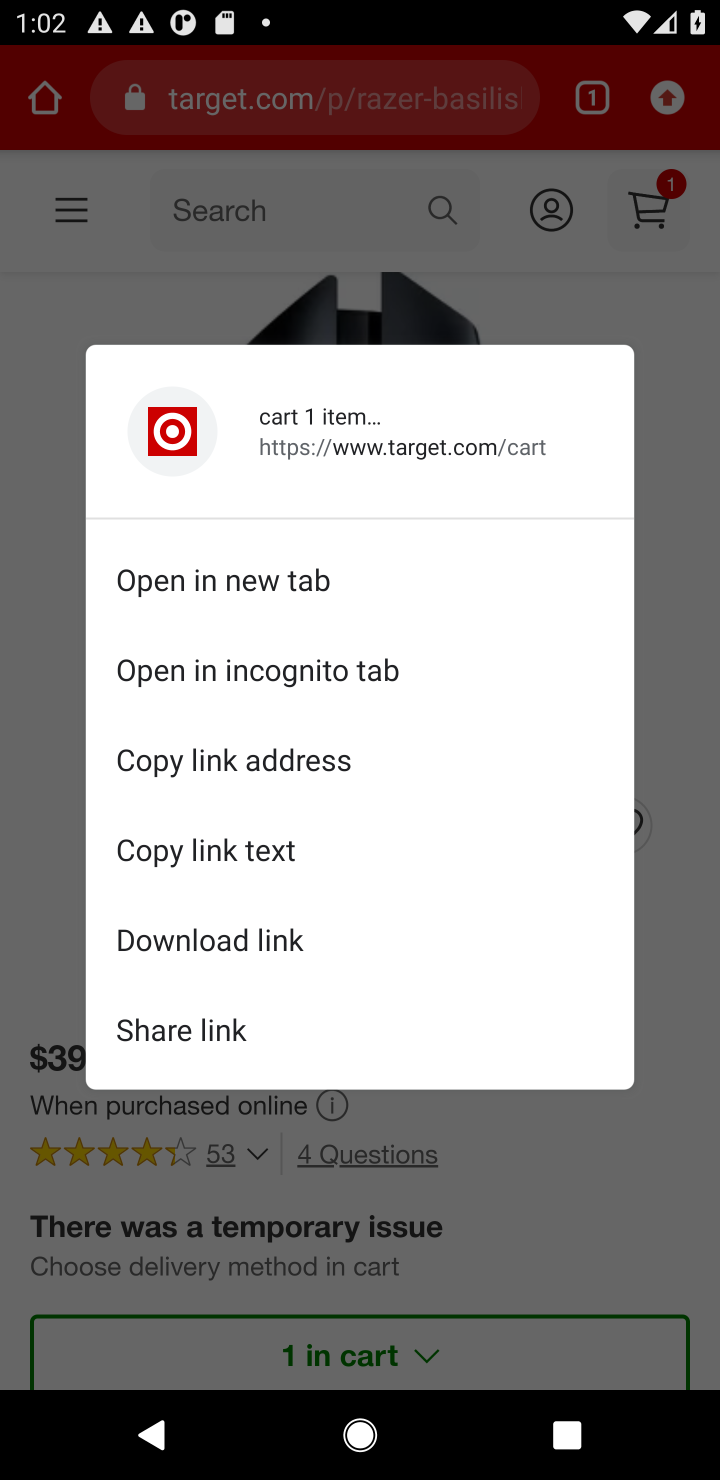
Step 31: click (205, 563)
Your task to perform on an android device: Clear the cart on target. Search for razer thresher on target, select the first entry, add it to the cart, then select checkout. Image 32: 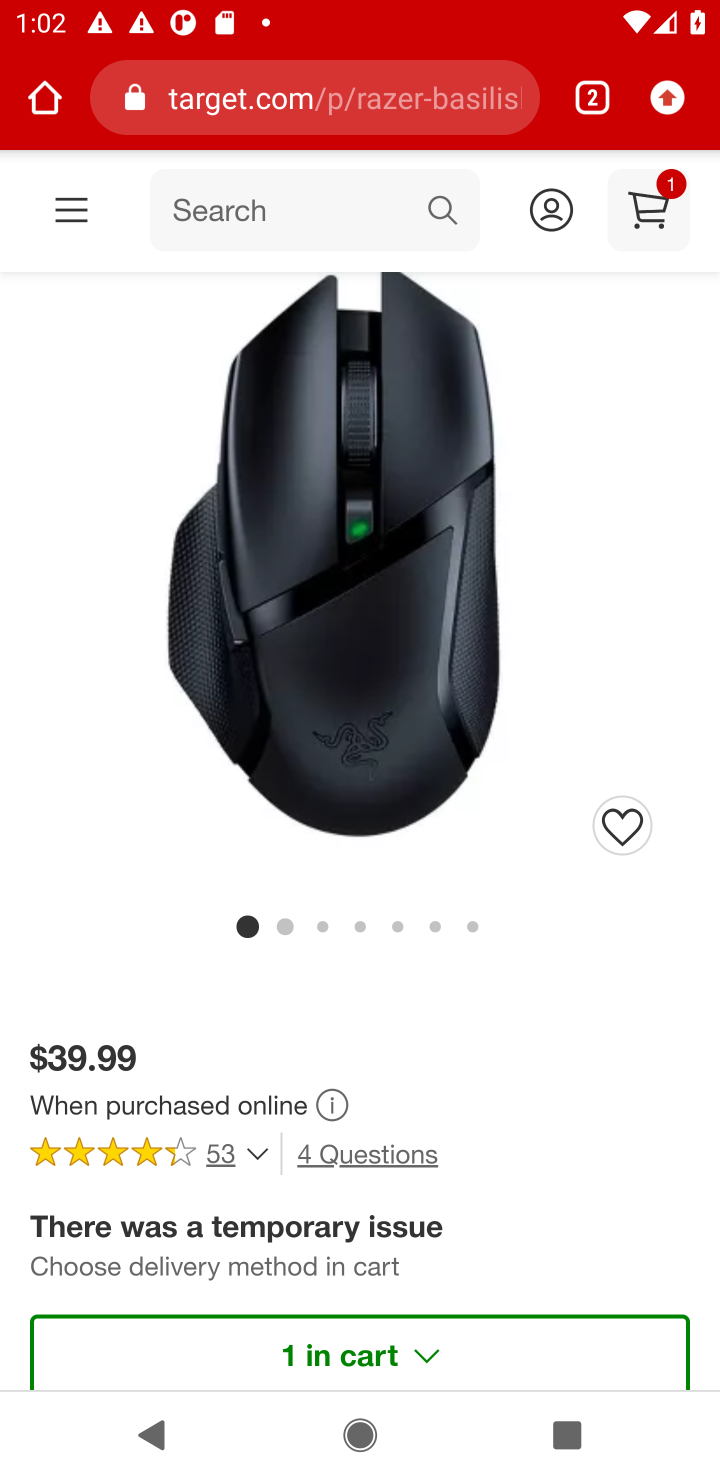
Step 32: task complete